Your task to perform on an android device: Clear all items from cart on newegg.com. Add dell alienware to the cart on newegg.com, then select checkout. Image 0: 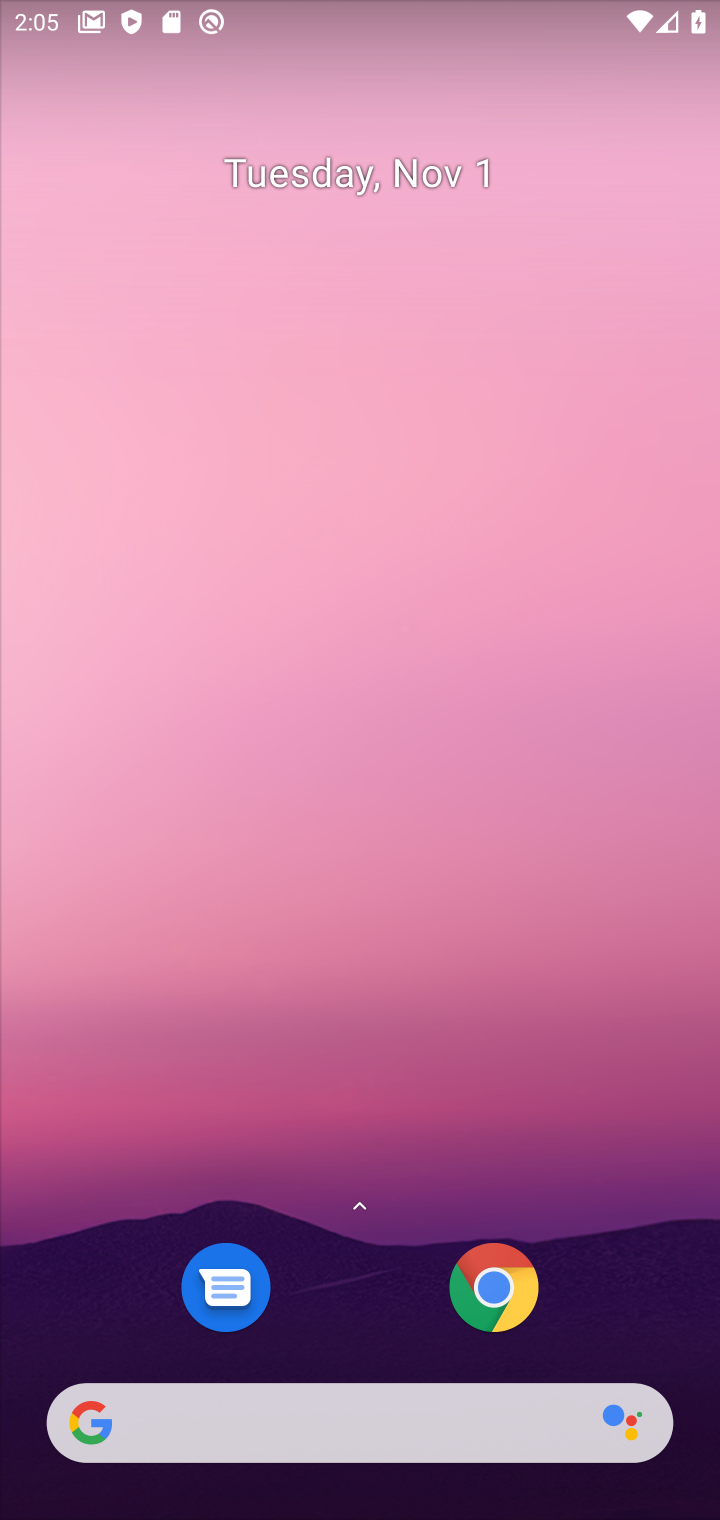
Step 0: drag from (375, 1315) to (556, 197)
Your task to perform on an android device: Clear all items from cart on newegg.com. Add dell alienware to the cart on newegg.com, then select checkout. Image 1: 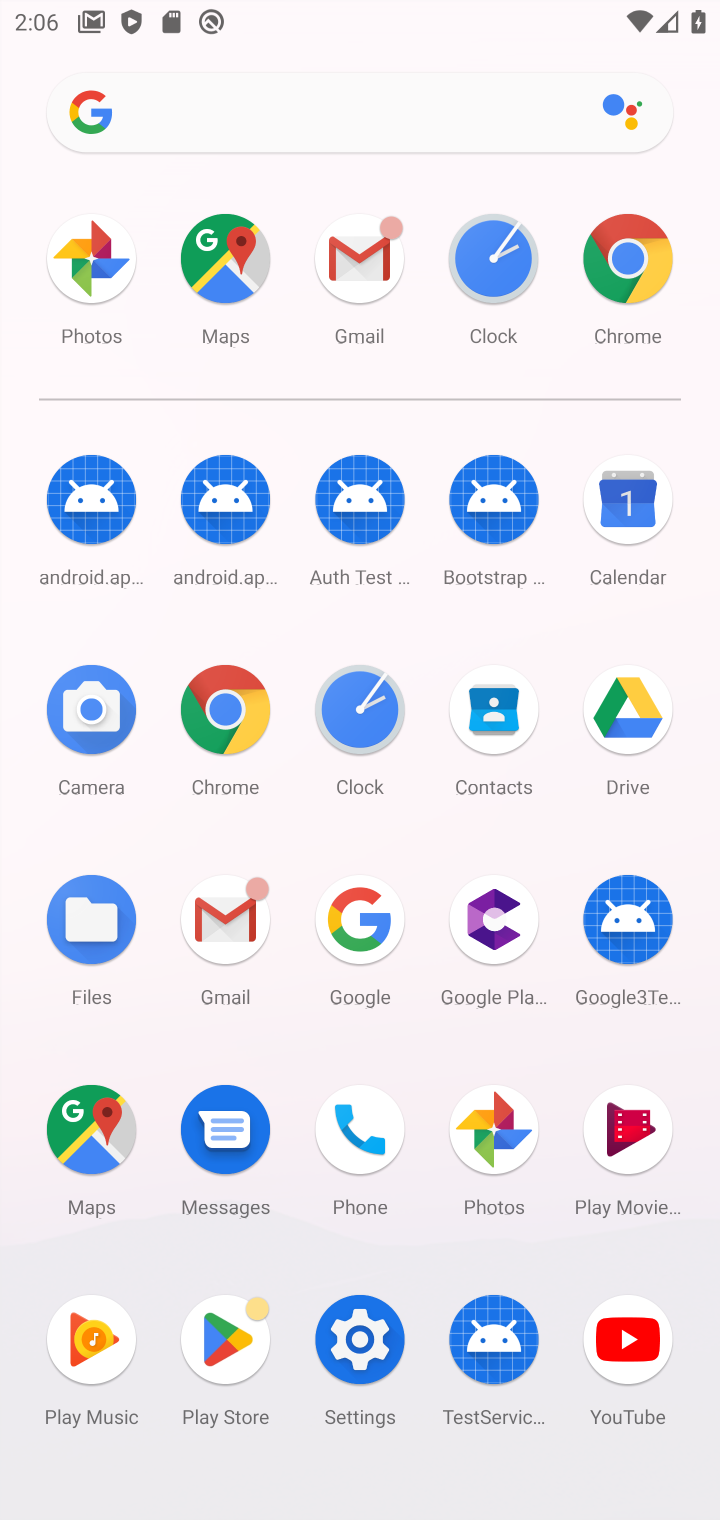
Step 1: click (210, 717)
Your task to perform on an android device: Clear all items from cart on newegg.com. Add dell alienware to the cart on newegg.com, then select checkout. Image 2: 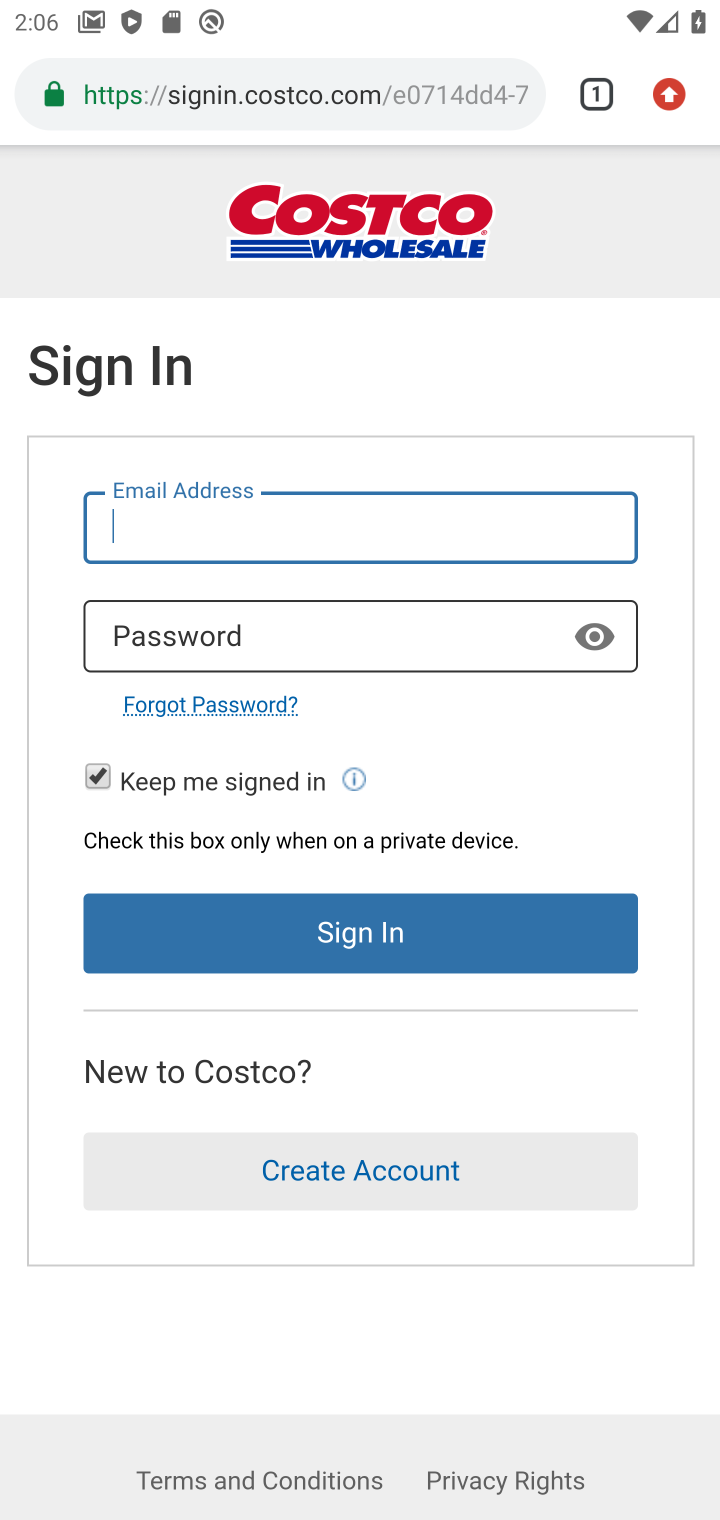
Step 2: click (350, 101)
Your task to perform on an android device: Clear all items from cart on newegg.com. Add dell alienware to the cart on newegg.com, then select checkout. Image 3: 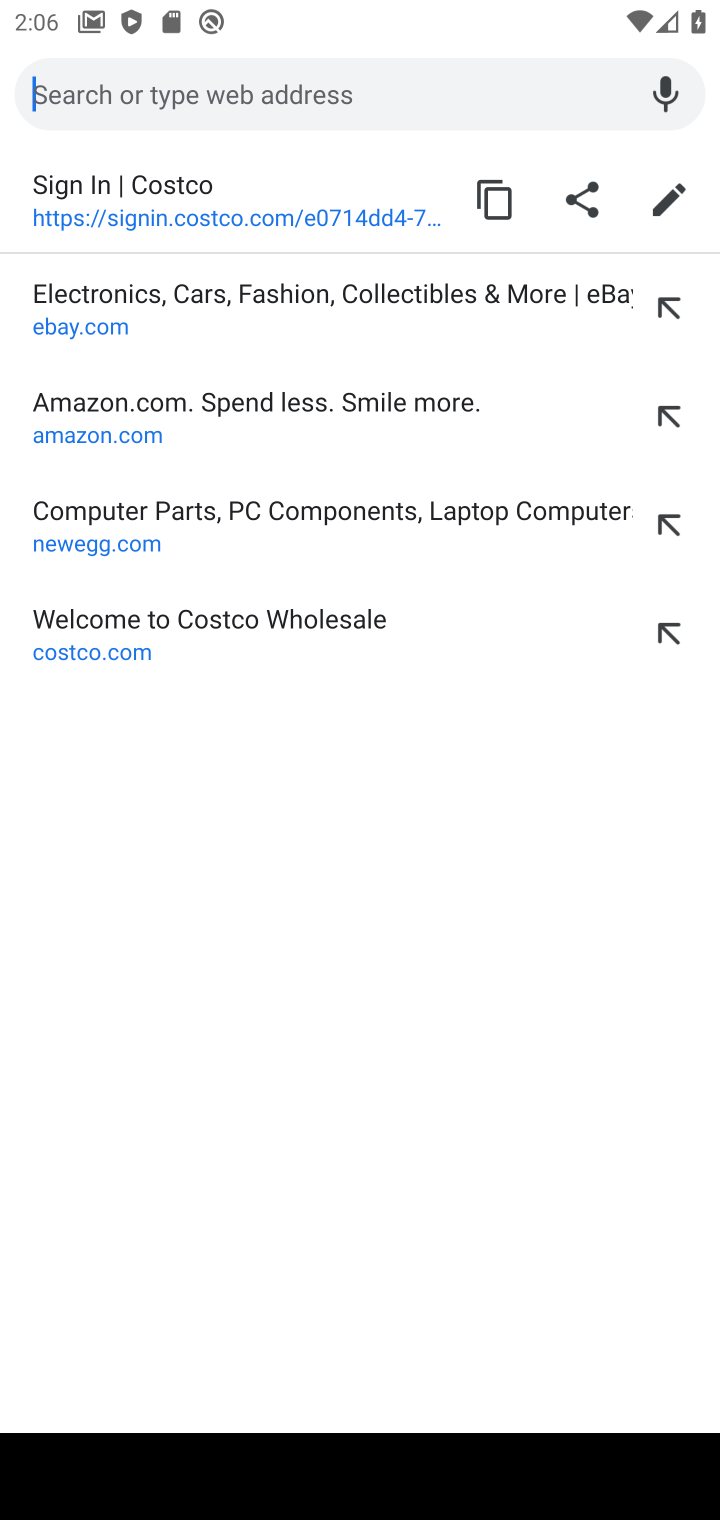
Step 3: type "newegg.com"
Your task to perform on an android device: Clear all items from cart on newegg.com. Add dell alienware to the cart on newegg.com, then select checkout. Image 4: 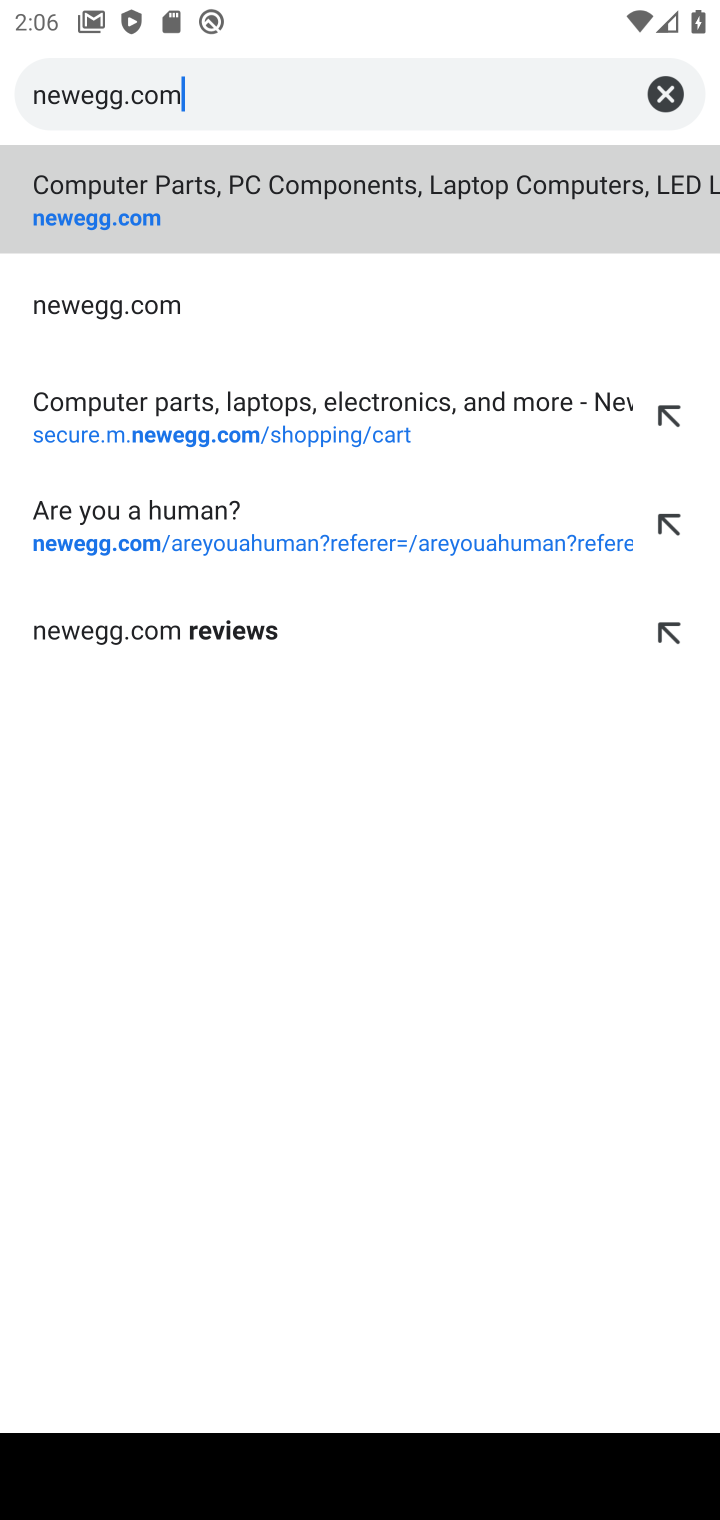
Step 4: press enter
Your task to perform on an android device: Clear all items from cart on newegg.com. Add dell alienware to the cart on newegg.com, then select checkout. Image 5: 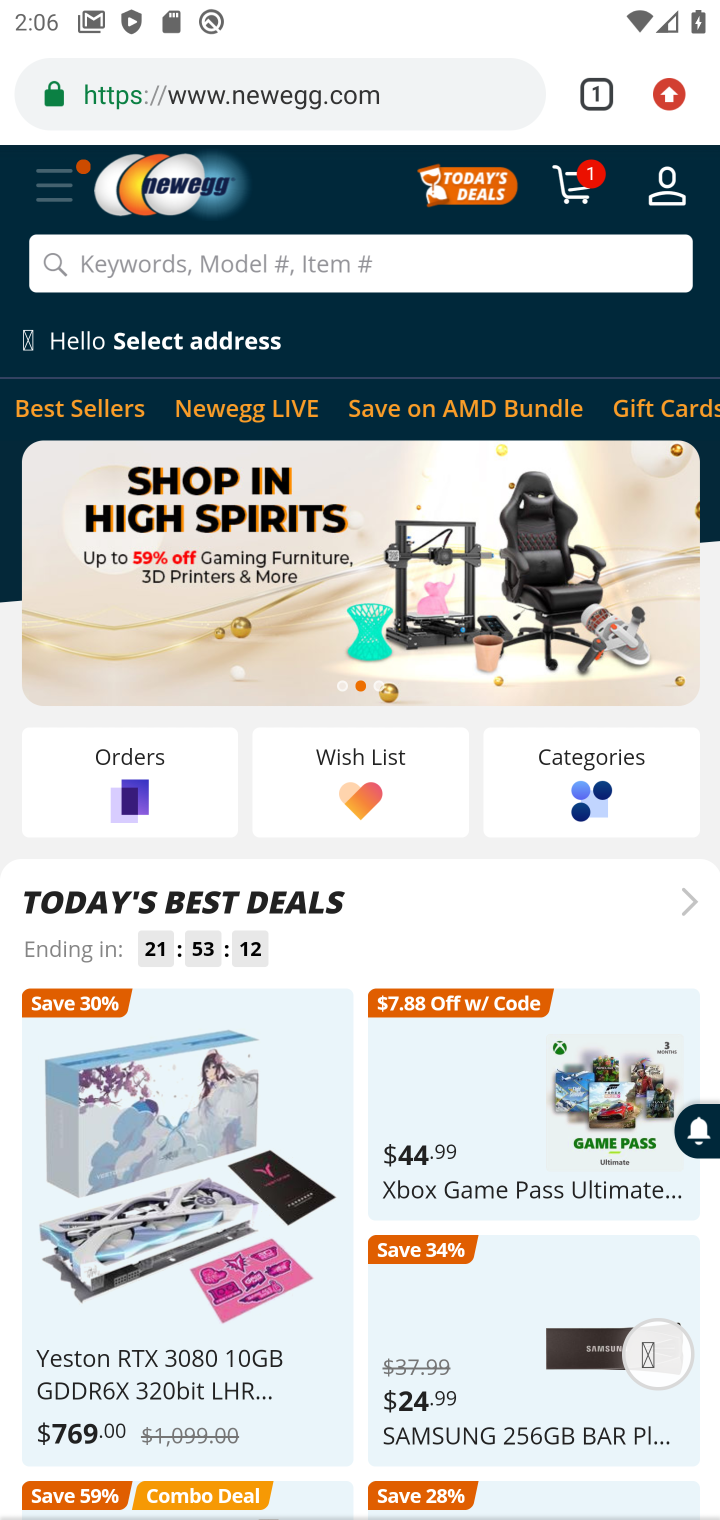
Step 5: click (595, 183)
Your task to perform on an android device: Clear all items from cart on newegg.com. Add dell alienware to the cart on newegg.com, then select checkout. Image 6: 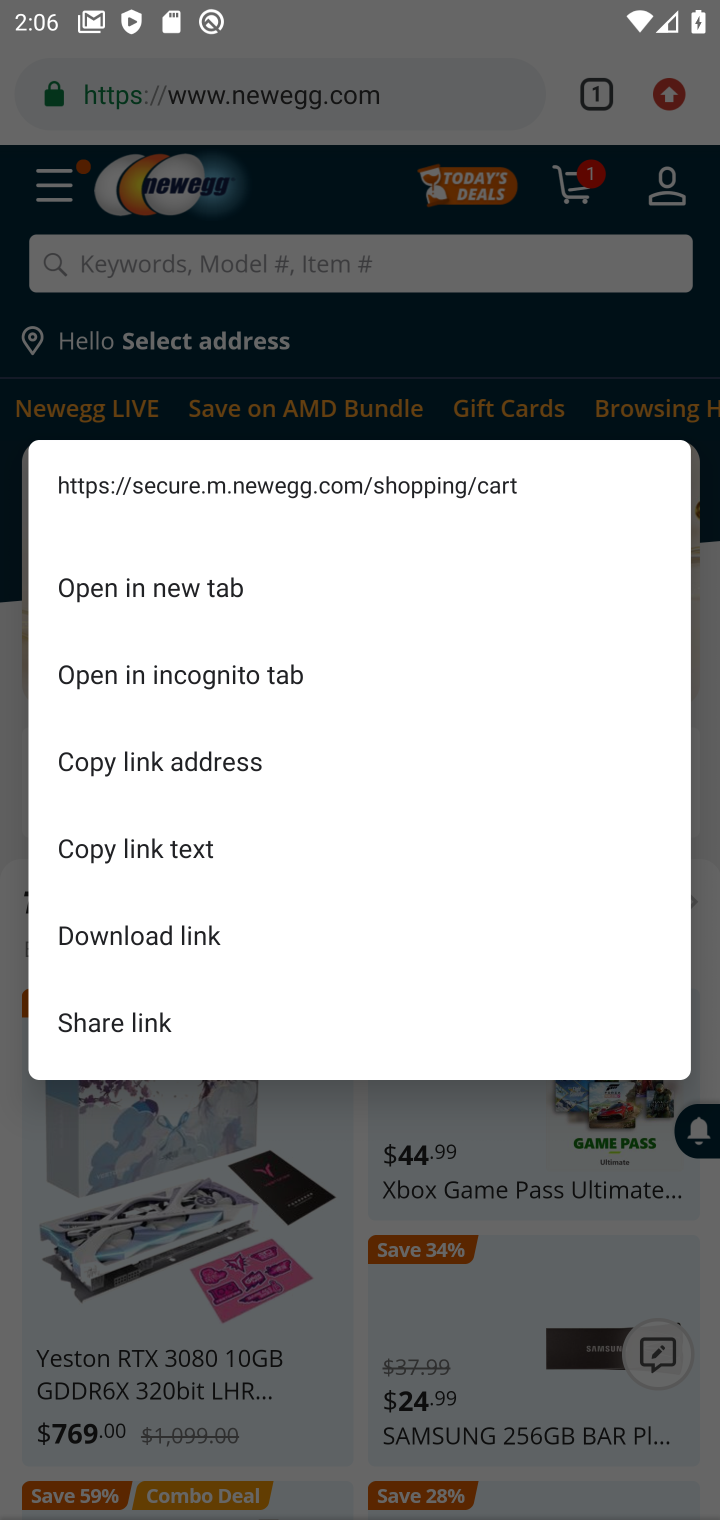
Step 6: click (579, 198)
Your task to perform on an android device: Clear all items from cart on newegg.com. Add dell alienware to the cart on newegg.com, then select checkout. Image 7: 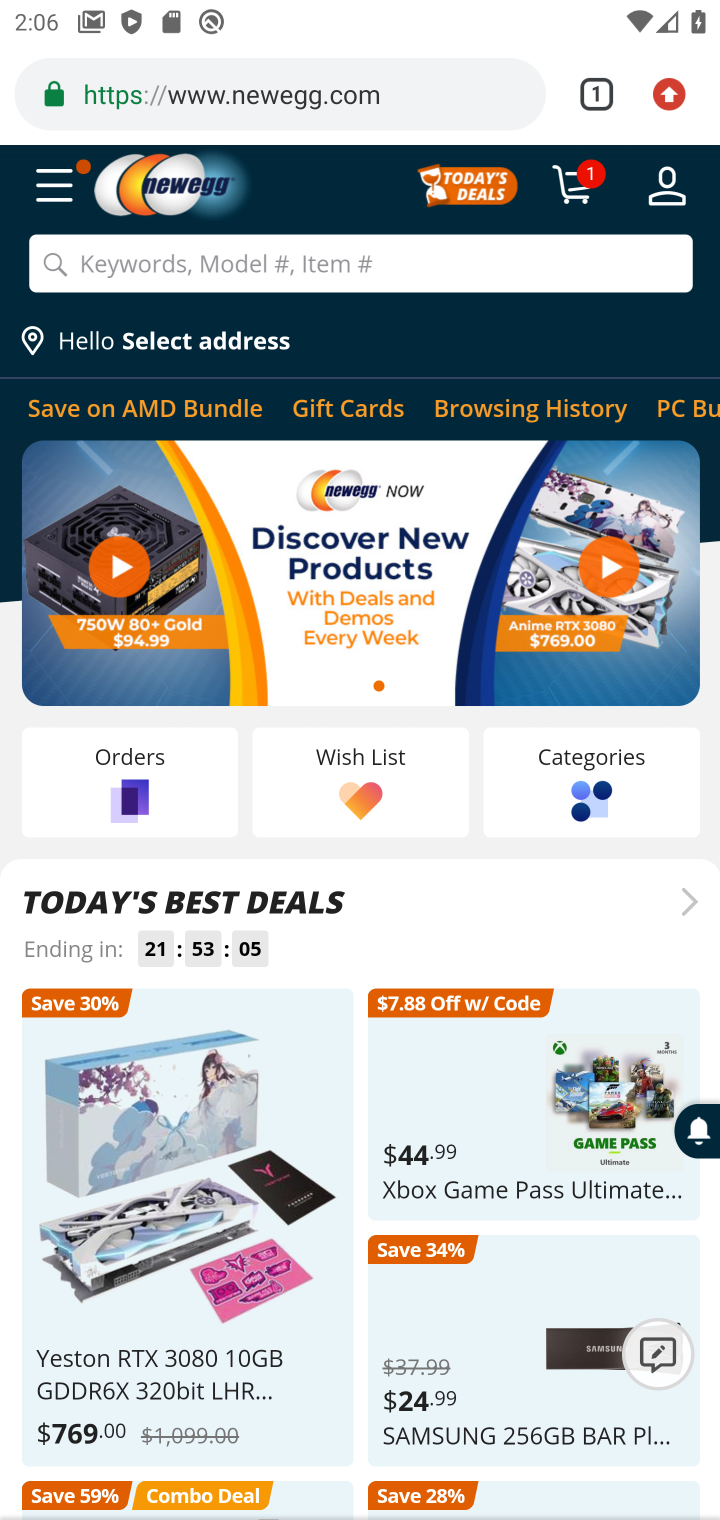
Step 7: click (579, 198)
Your task to perform on an android device: Clear all items from cart on newegg.com. Add dell alienware to the cart on newegg.com, then select checkout. Image 8: 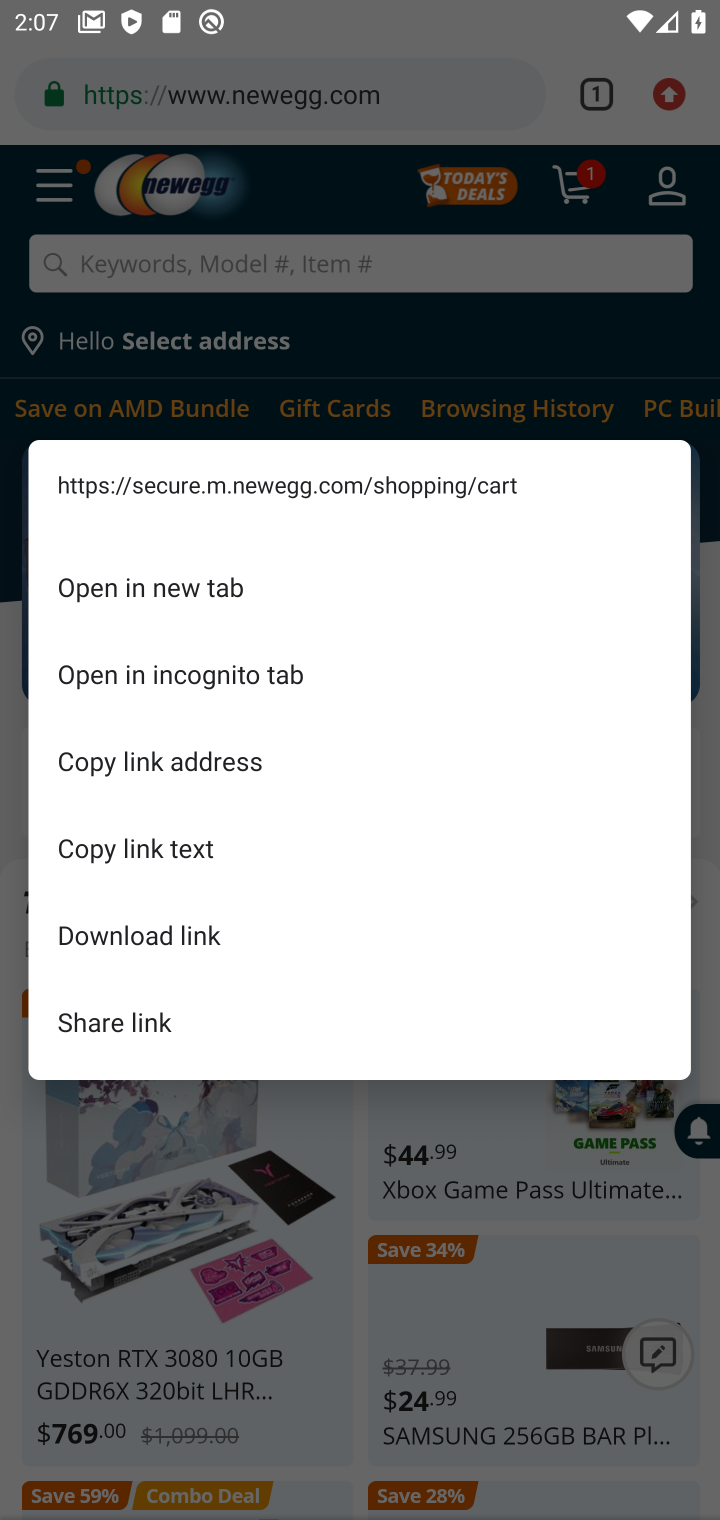
Step 8: click (569, 160)
Your task to perform on an android device: Clear all items from cart on newegg.com. Add dell alienware to the cart on newegg.com, then select checkout. Image 9: 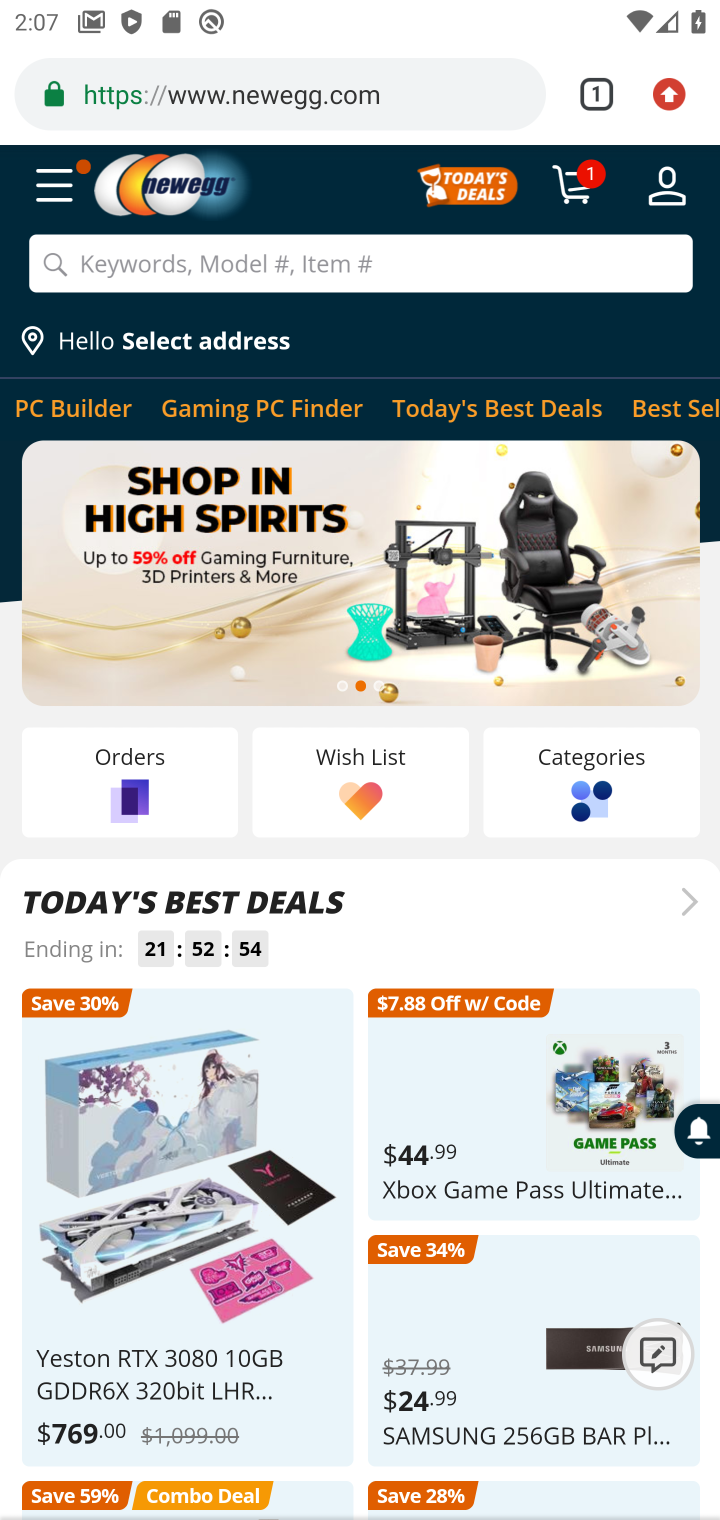
Step 9: click (577, 190)
Your task to perform on an android device: Clear all items from cart on newegg.com. Add dell alienware to the cart on newegg.com, then select checkout. Image 10: 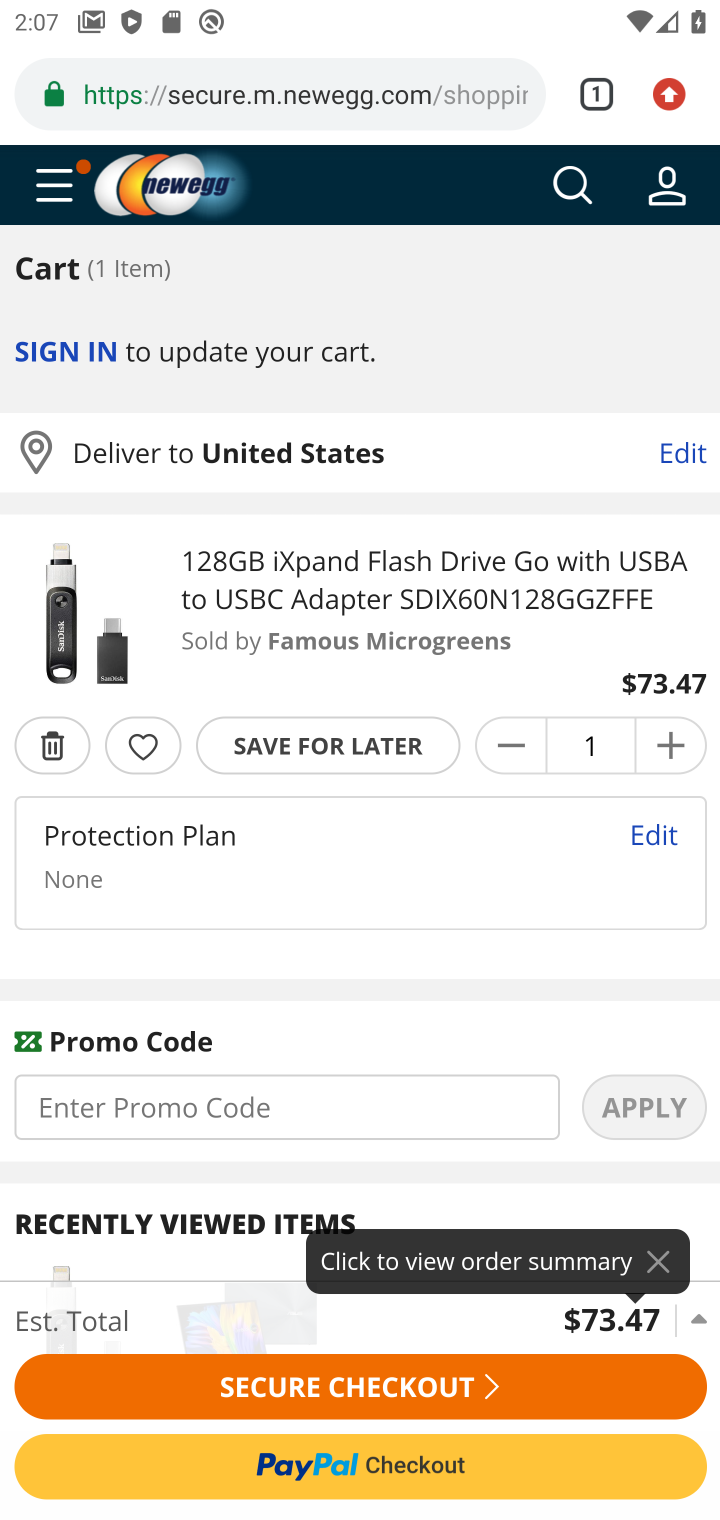
Step 10: click (55, 748)
Your task to perform on an android device: Clear all items from cart on newegg.com. Add dell alienware to the cart on newegg.com, then select checkout. Image 11: 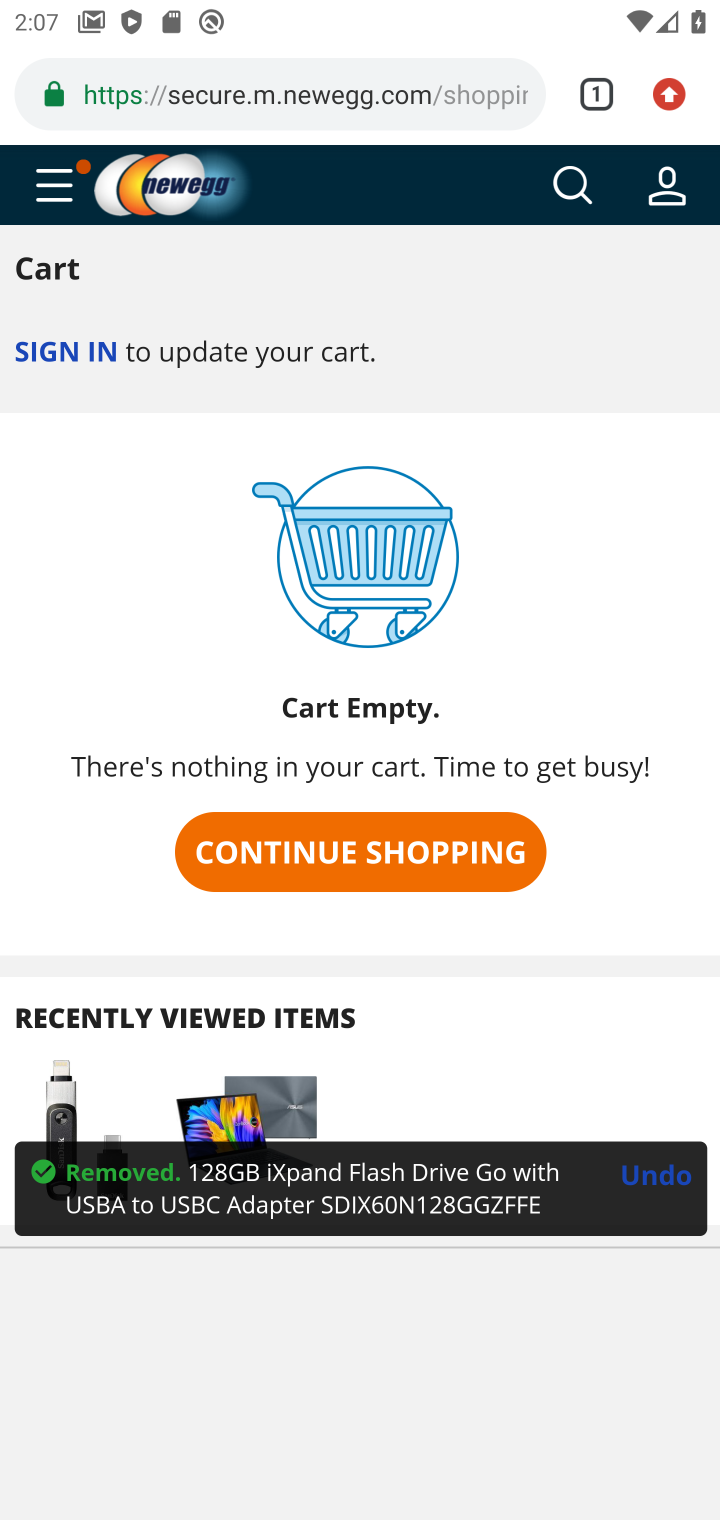
Step 11: click (588, 173)
Your task to perform on an android device: Clear all items from cart on newegg.com. Add dell alienware to the cart on newegg.com, then select checkout. Image 12: 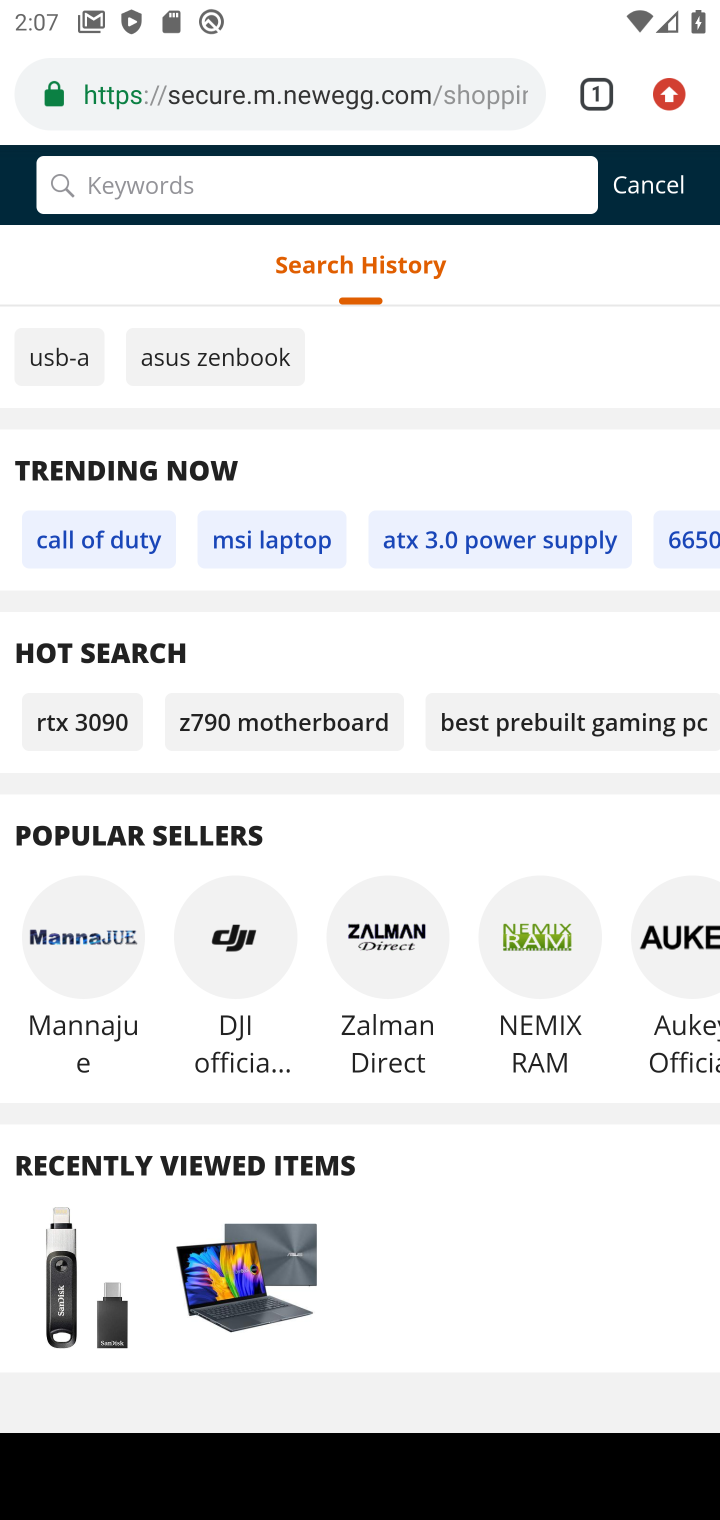
Step 12: type "dell alienware"
Your task to perform on an android device: Clear all items from cart on newegg.com. Add dell alienware to the cart on newegg.com, then select checkout. Image 13: 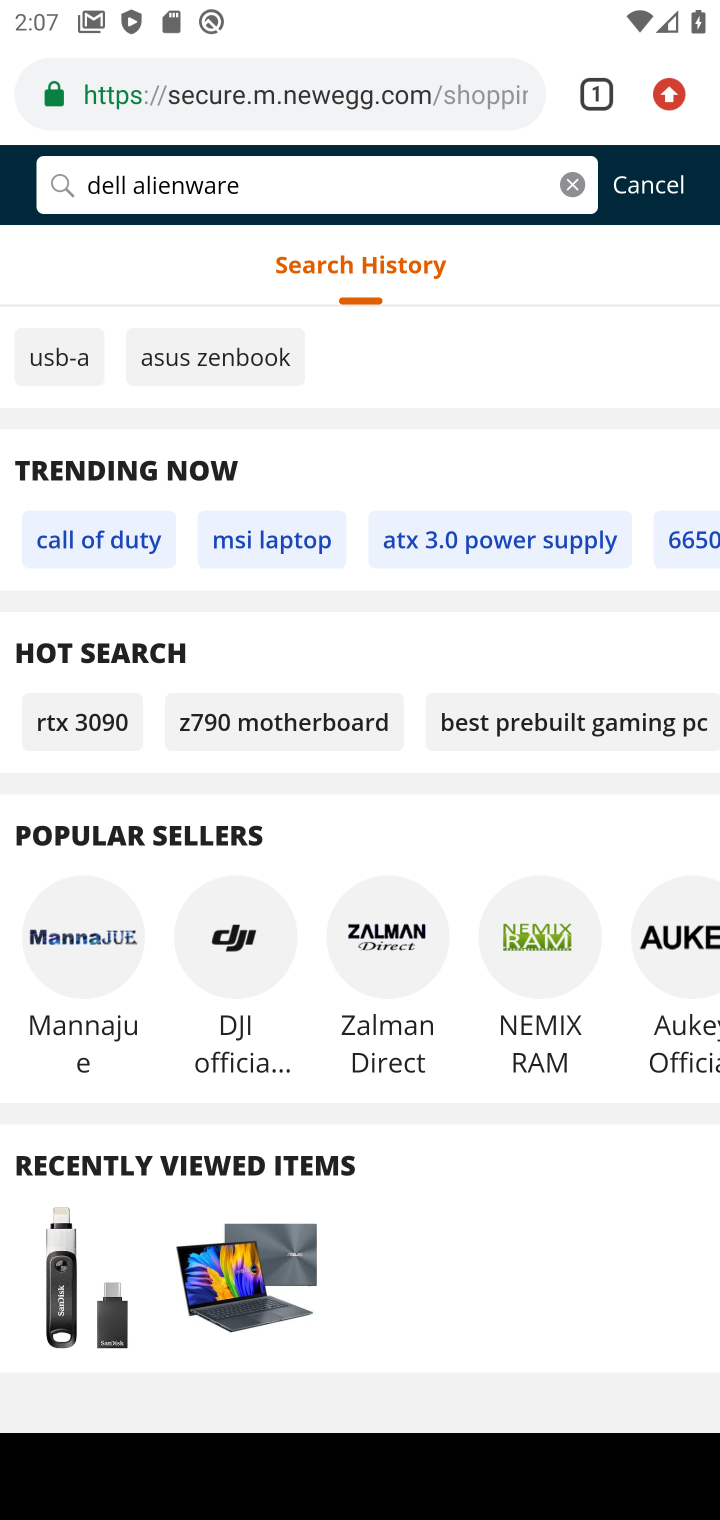
Step 13: press enter
Your task to perform on an android device: Clear all items from cart on newegg.com. Add dell alienware to the cart on newegg.com, then select checkout. Image 14: 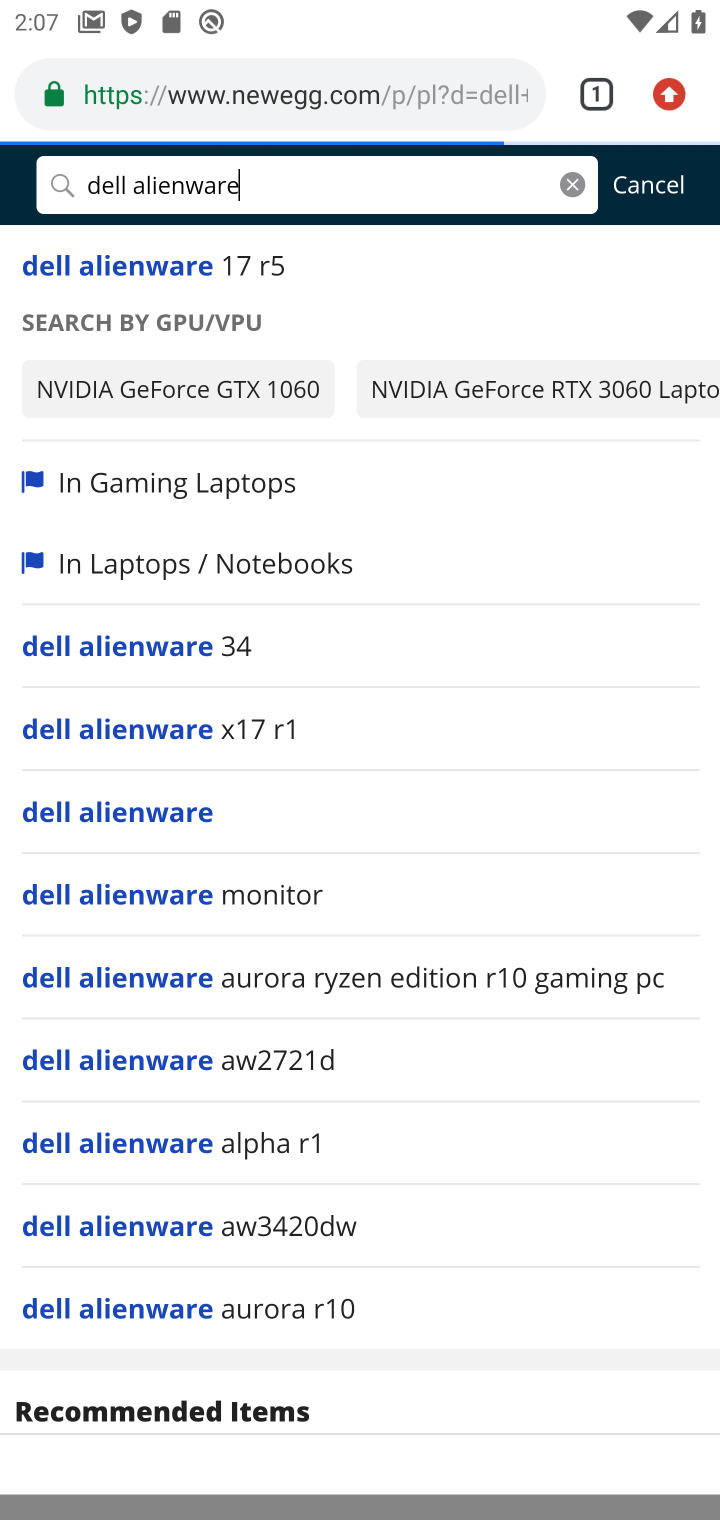
Step 14: press enter
Your task to perform on an android device: Clear all items from cart on newegg.com. Add dell alienware to the cart on newegg.com, then select checkout. Image 15: 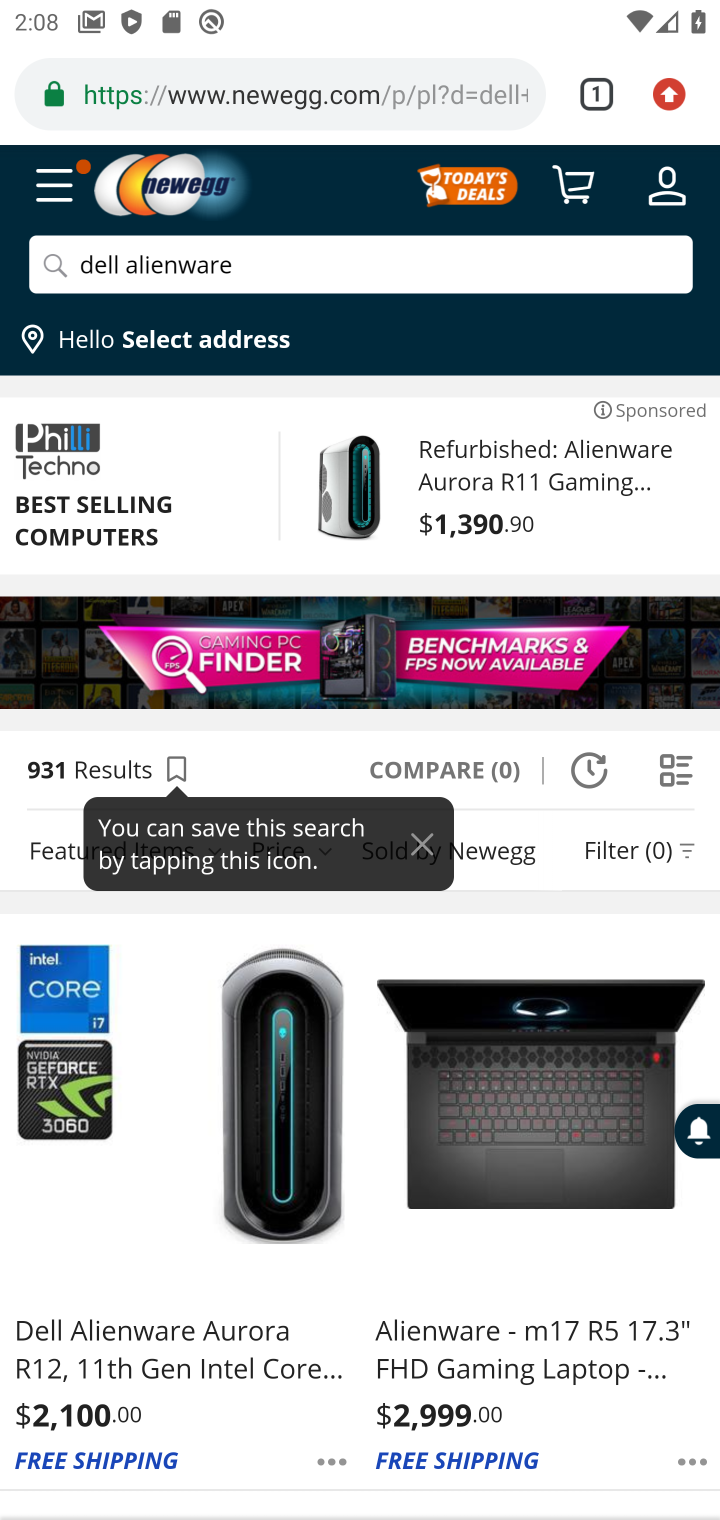
Step 15: drag from (388, 1271) to (472, 369)
Your task to perform on an android device: Clear all items from cart on newegg.com. Add dell alienware to the cart on newegg.com, then select checkout. Image 16: 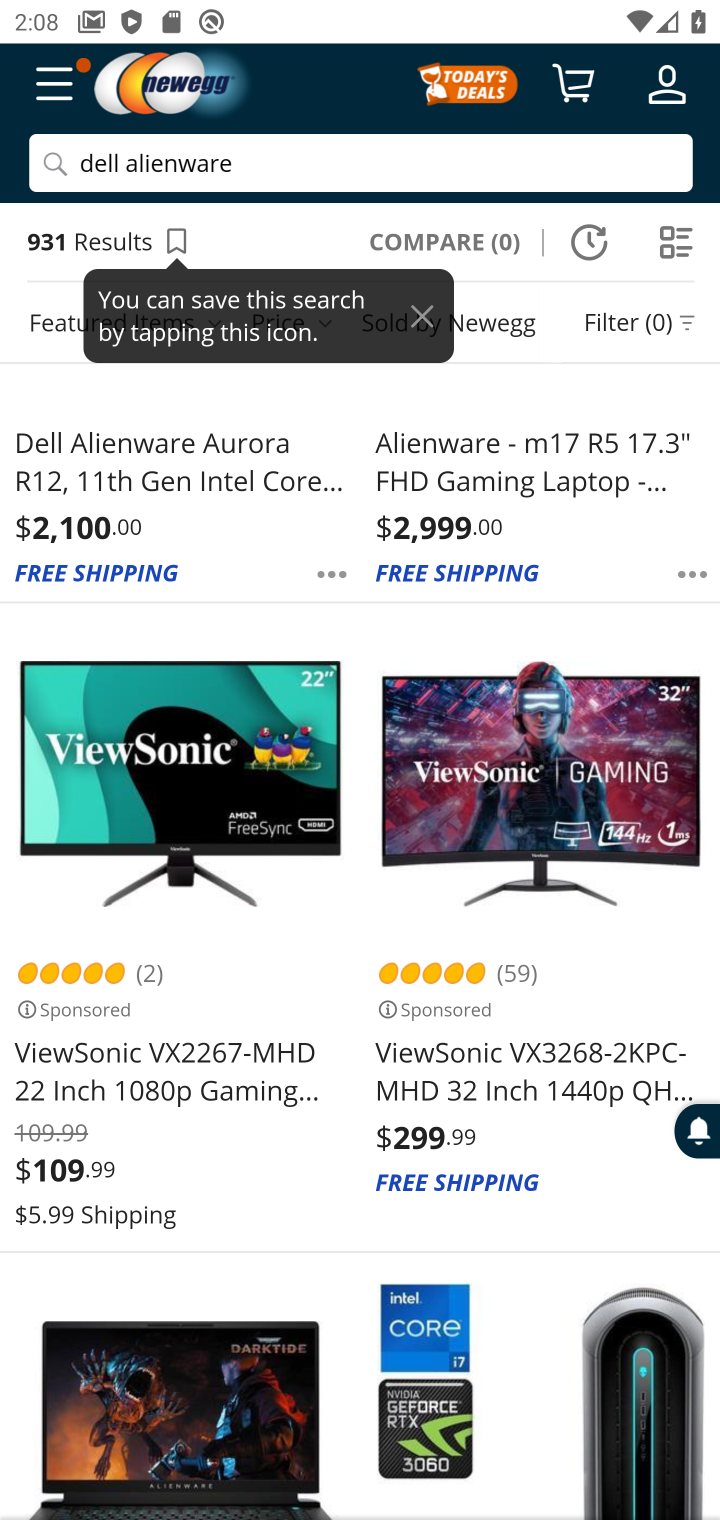
Step 16: drag from (546, 528) to (552, 798)
Your task to perform on an android device: Clear all items from cart on newegg.com. Add dell alienware to the cart on newegg.com, then select checkout. Image 17: 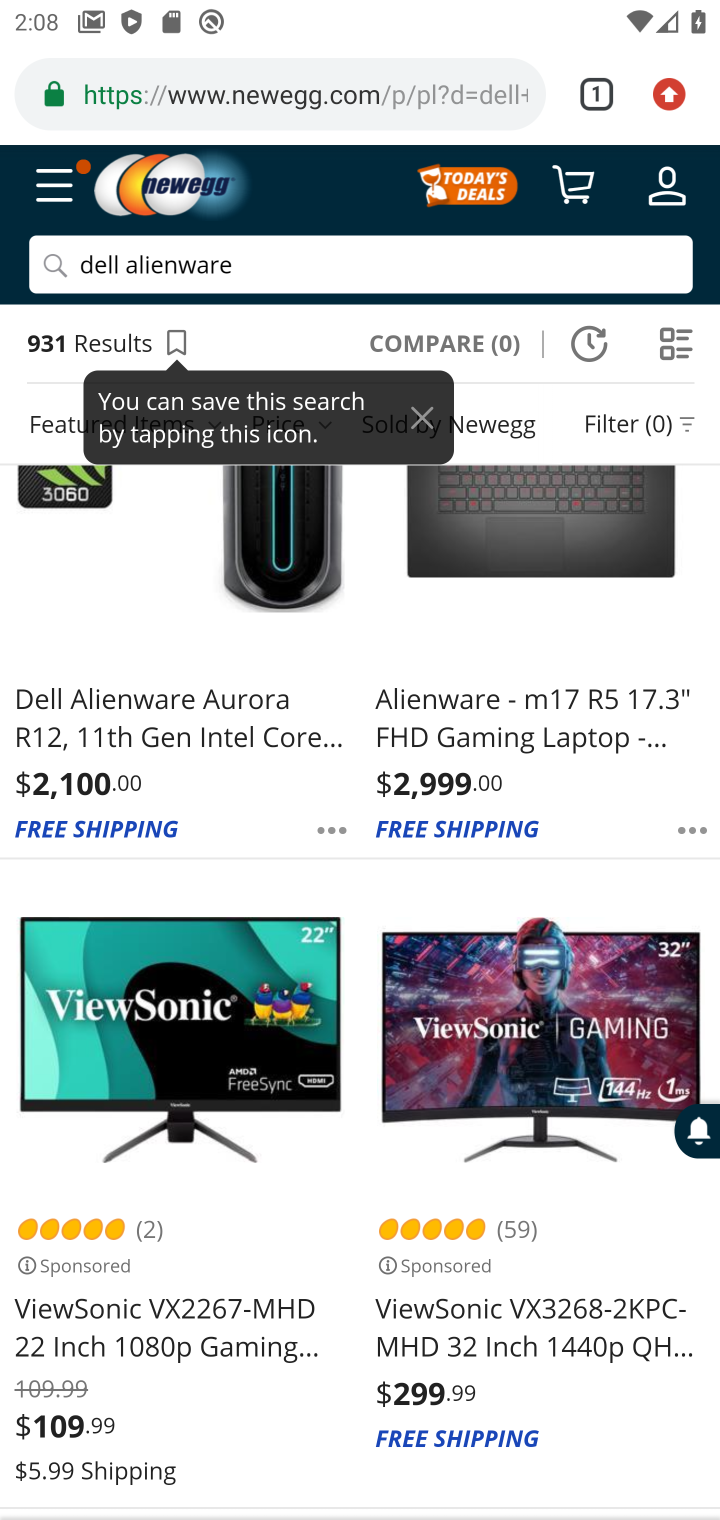
Step 17: drag from (518, 598) to (456, 1071)
Your task to perform on an android device: Clear all items from cart on newegg.com. Add dell alienware to the cart on newegg.com, then select checkout. Image 18: 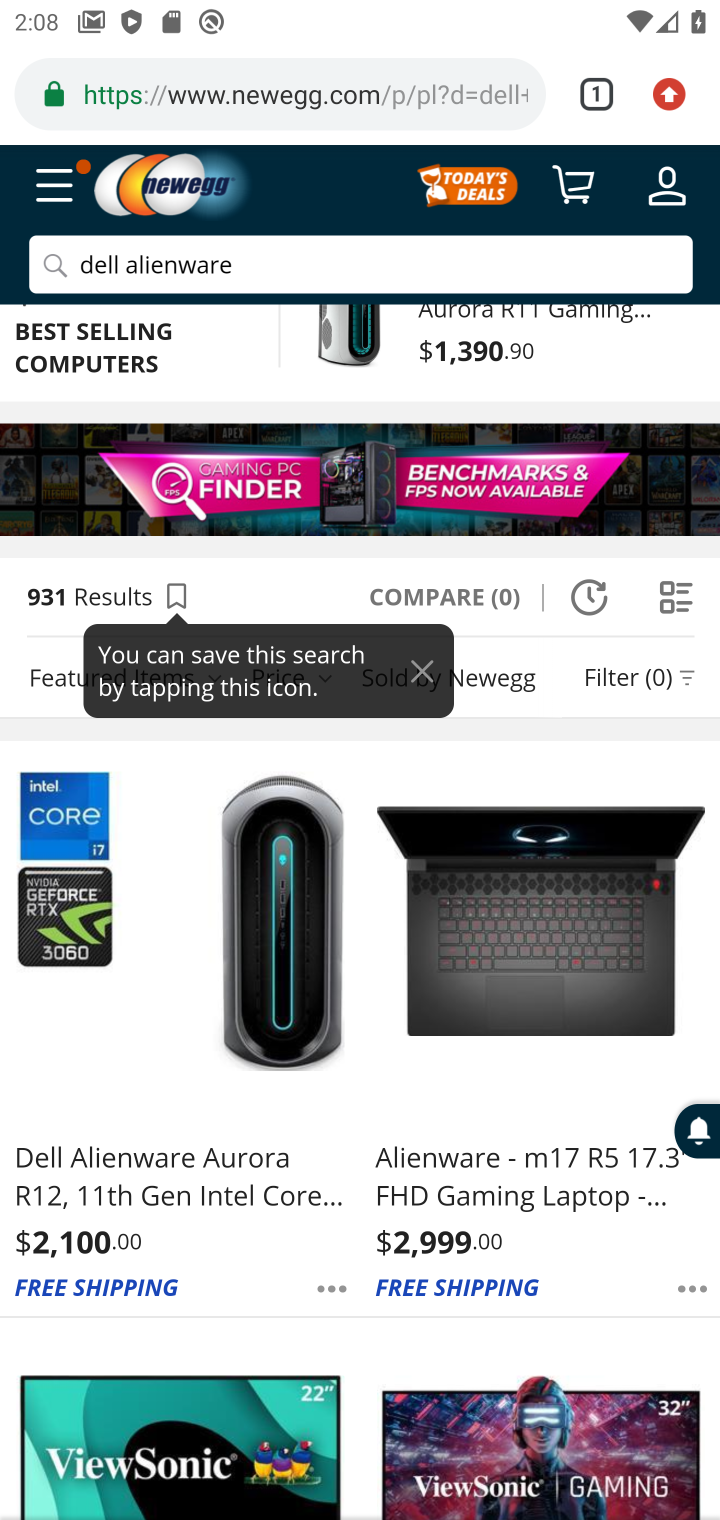
Step 18: click (286, 980)
Your task to perform on an android device: Clear all items from cart on newegg.com. Add dell alienware to the cart on newegg.com, then select checkout. Image 19: 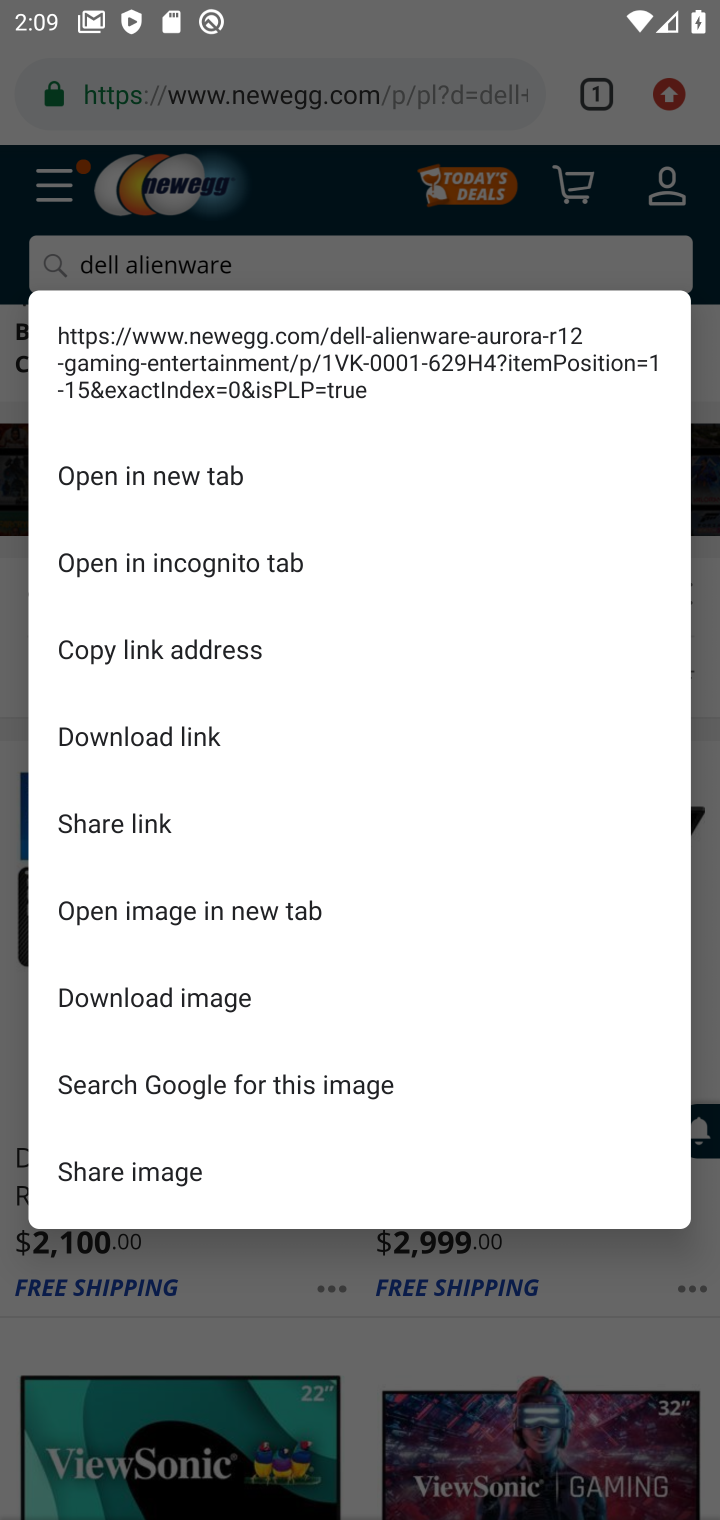
Step 19: click (332, 1288)
Your task to perform on an android device: Clear all items from cart on newegg.com. Add dell alienware to the cart on newegg.com, then select checkout. Image 20: 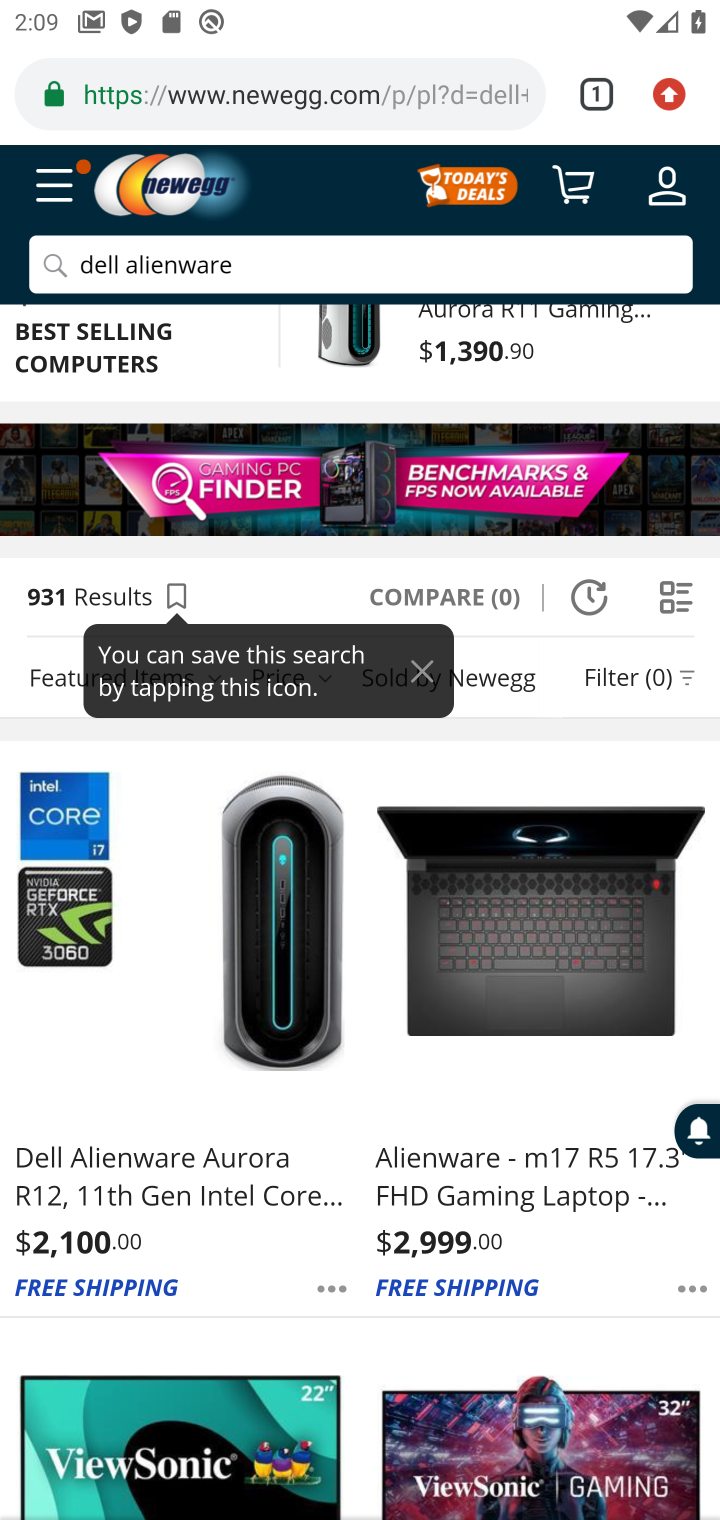
Step 20: click (175, 1148)
Your task to perform on an android device: Clear all items from cart on newegg.com. Add dell alienware to the cart on newegg.com, then select checkout. Image 21: 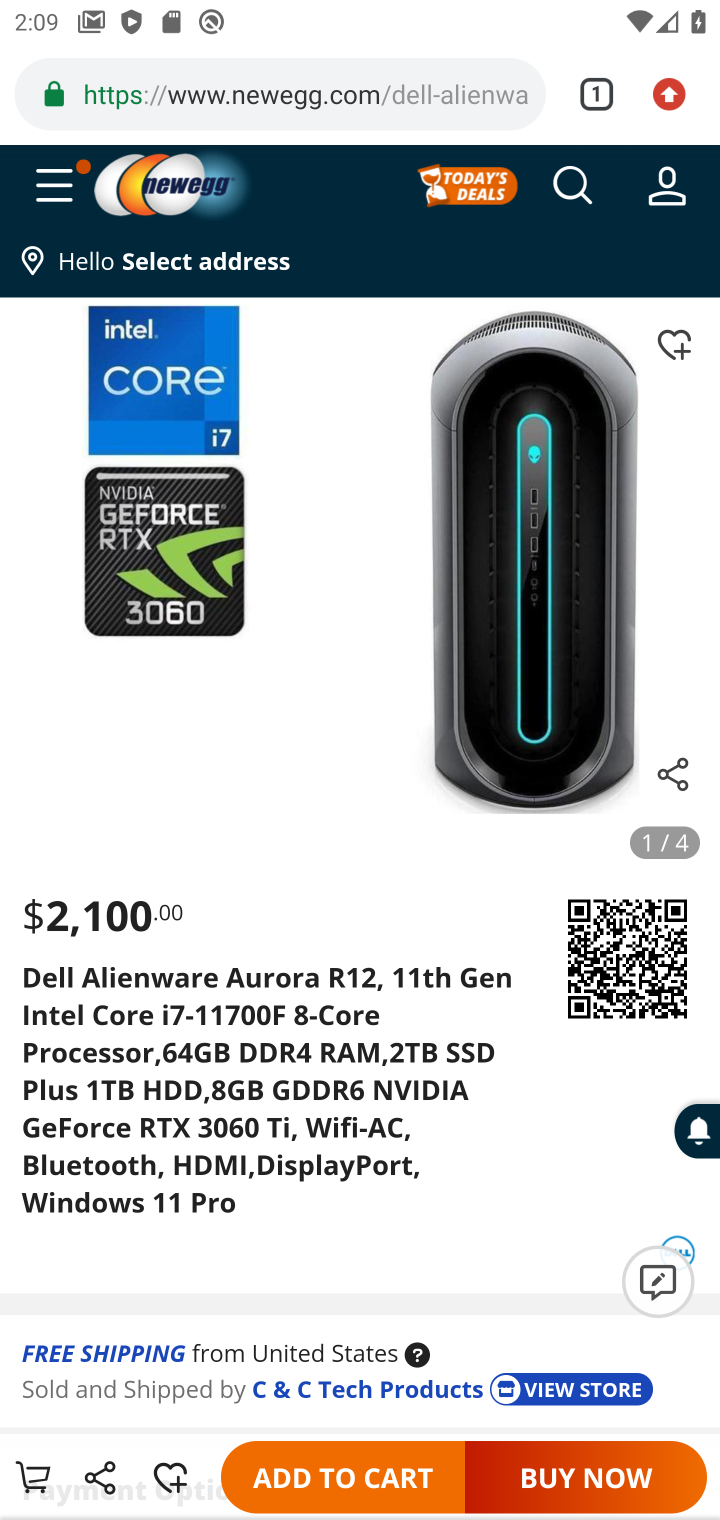
Step 21: click (359, 1476)
Your task to perform on an android device: Clear all items from cart on newegg.com. Add dell alienware to the cart on newegg.com, then select checkout. Image 22: 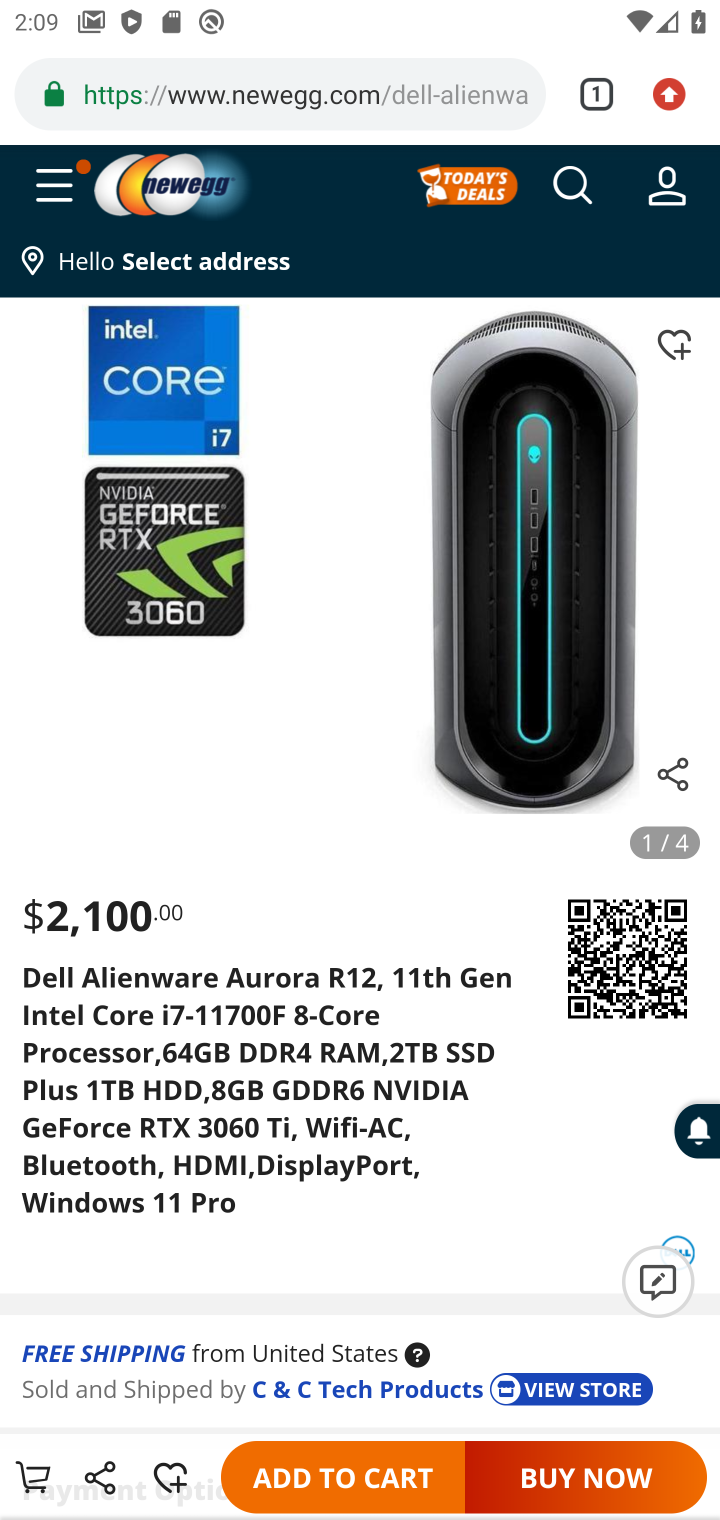
Step 22: click (336, 1464)
Your task to perform on an android device: Clear all items from cart on newegg.com. Add dell alienware to the cart on newegg.com, then select checkout. Image 23: 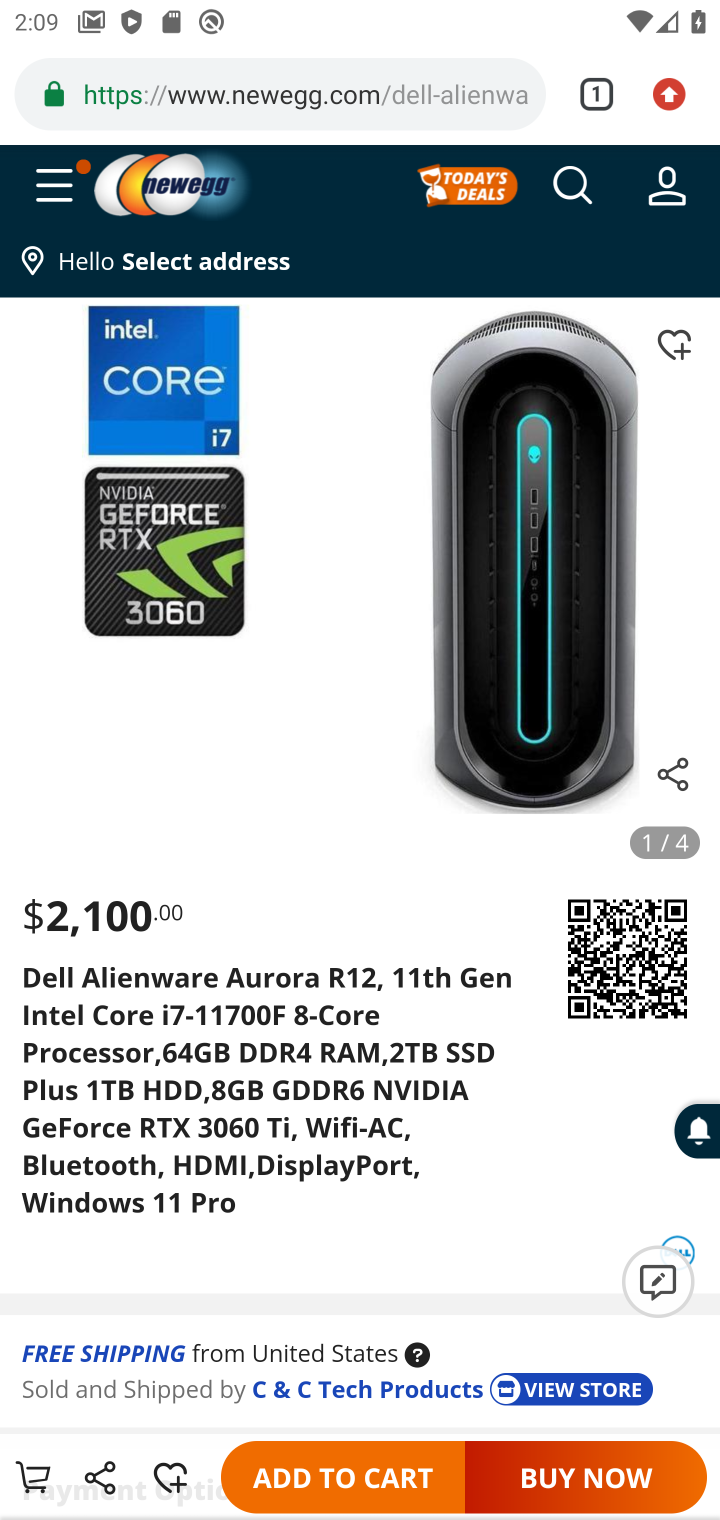
Step 23: click (311, 1456)
Your task to perform on an android device: Clear all items from cart on newegg.com. Add dell alienware to the cart on newegg.com, then select checkout. Image 24: 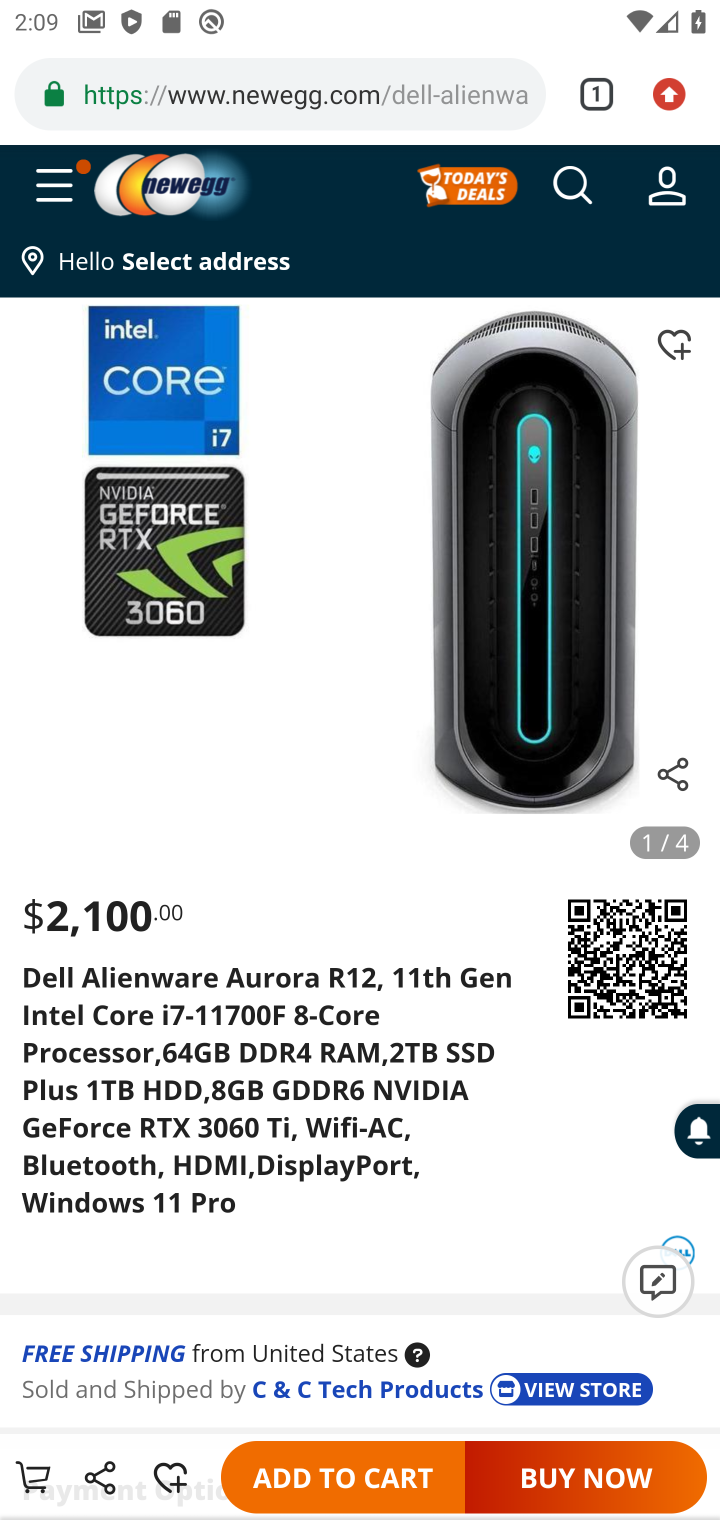
Step 24: drag from (291, 805) to (287, 226)
Your task to perform on an android device: Clear all items from cart on newegg.com. Add dell alienware to the cart on newegg.com, then select checkout. Image 25: 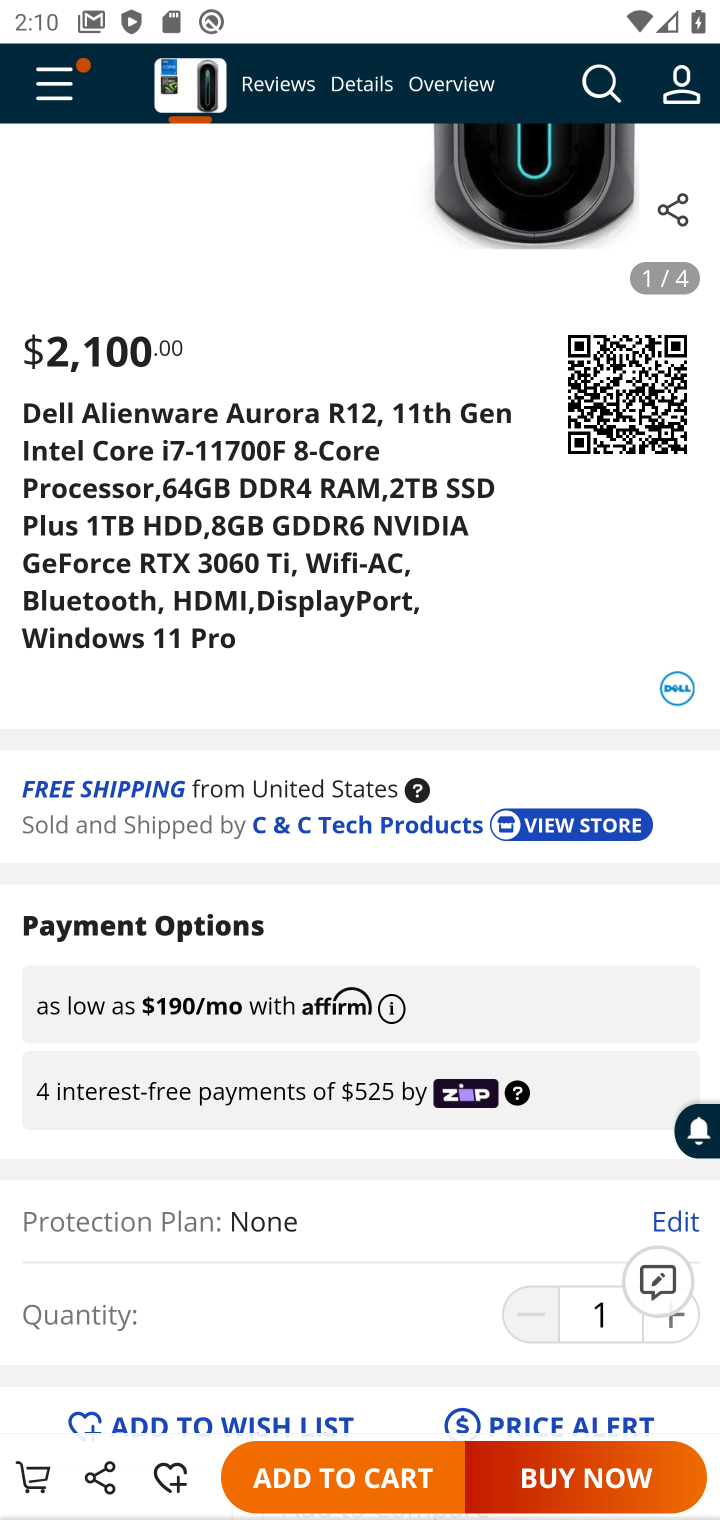
Step 25: click (341, 1474)
Your task to perform on an android device: Clear all items from cart on newegg.com. Add dell alienware to the cart on newegg.com, then select checkout. Image 26: 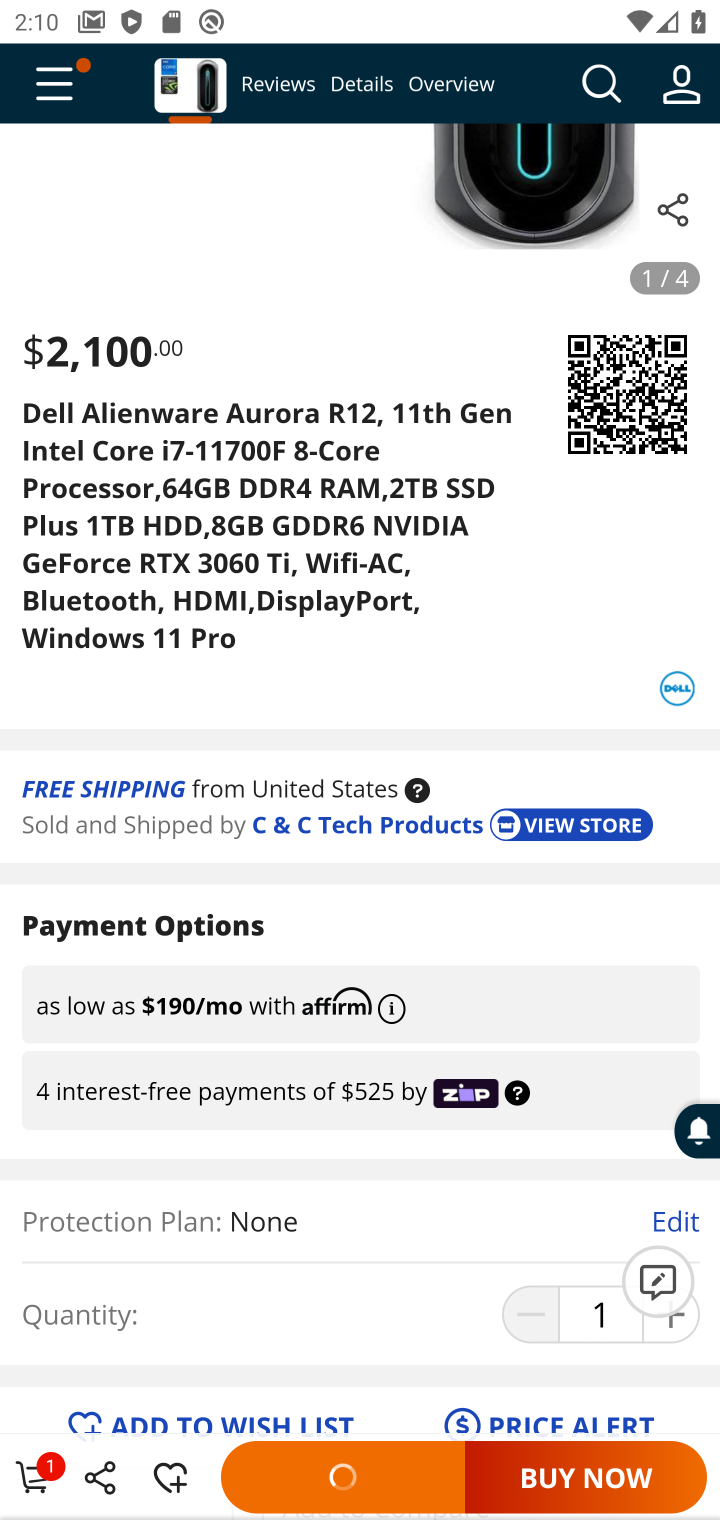
Step 26: click (43, 1466)
Your task to perform on an android device: Clear all items from cart on newegg.com. Add dell alienware to the cart on newegg.com, then select checkout. Image 27: 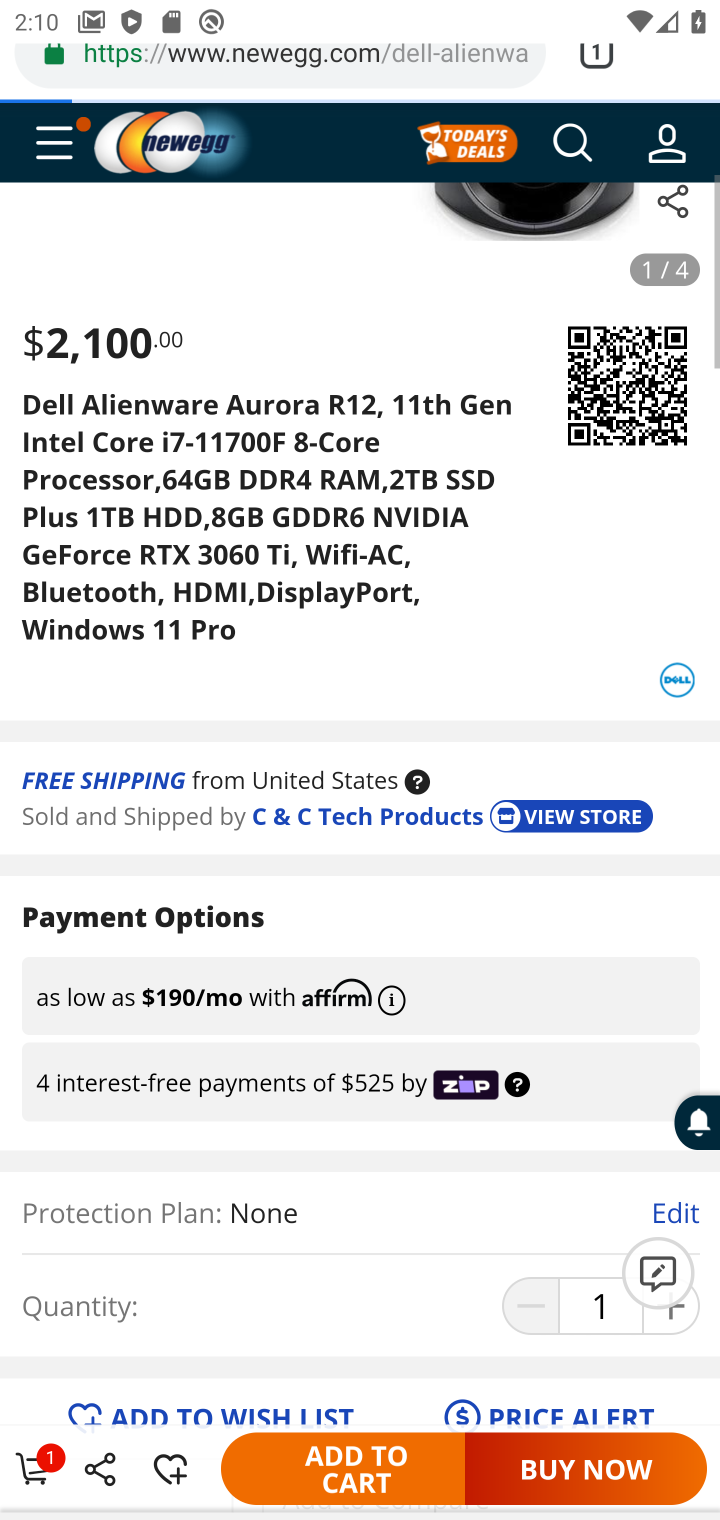
Step 27: click (45, 1485)
Your task to perform on an android device: Clear all items from cart on newegg.com. Add dell alienware to the cart on newegg.com, then select checkout. Image 28: 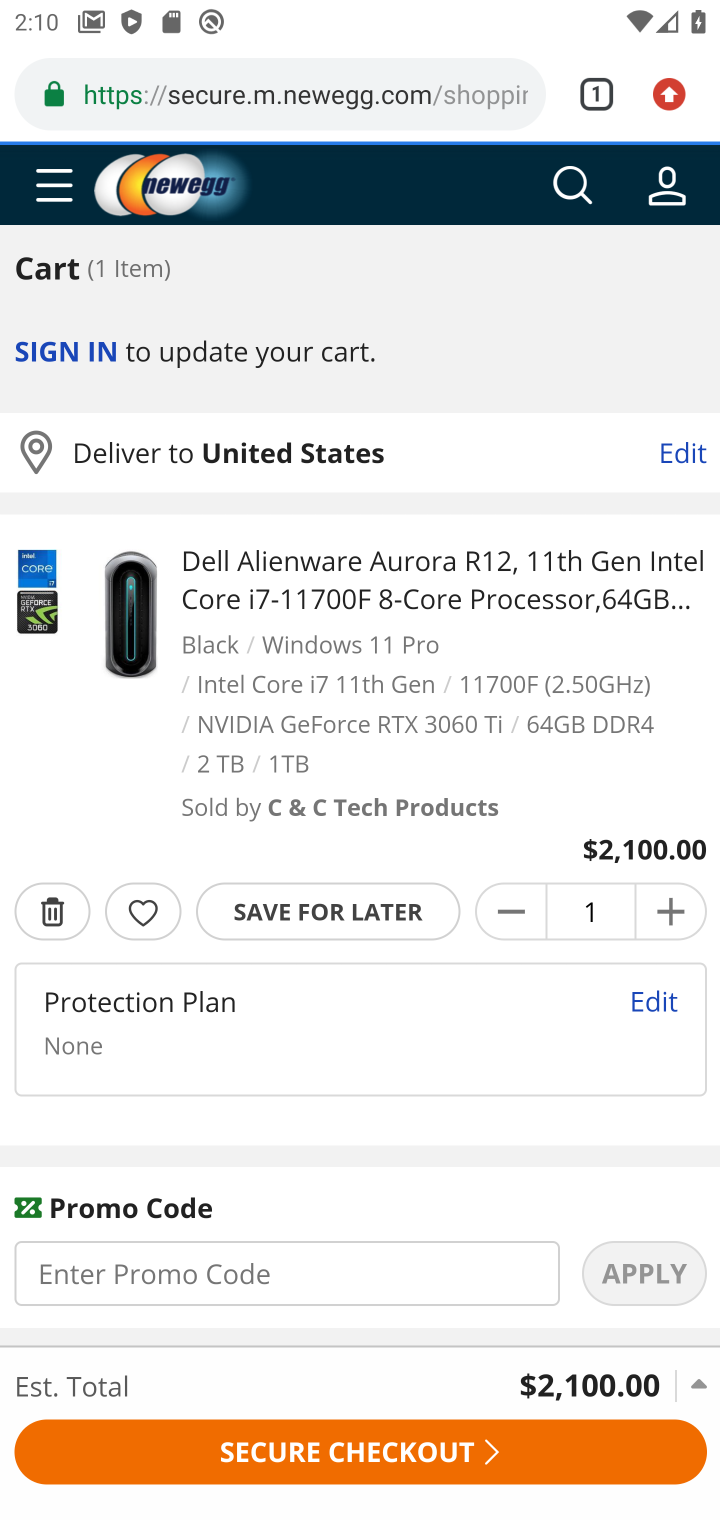
Step 28: click (350, 1389)
Your task to perform on an android device: Clear all items from cart on newegg.com. Add dell alienware to the cart on newegg.com, then select checkout. Image 29: 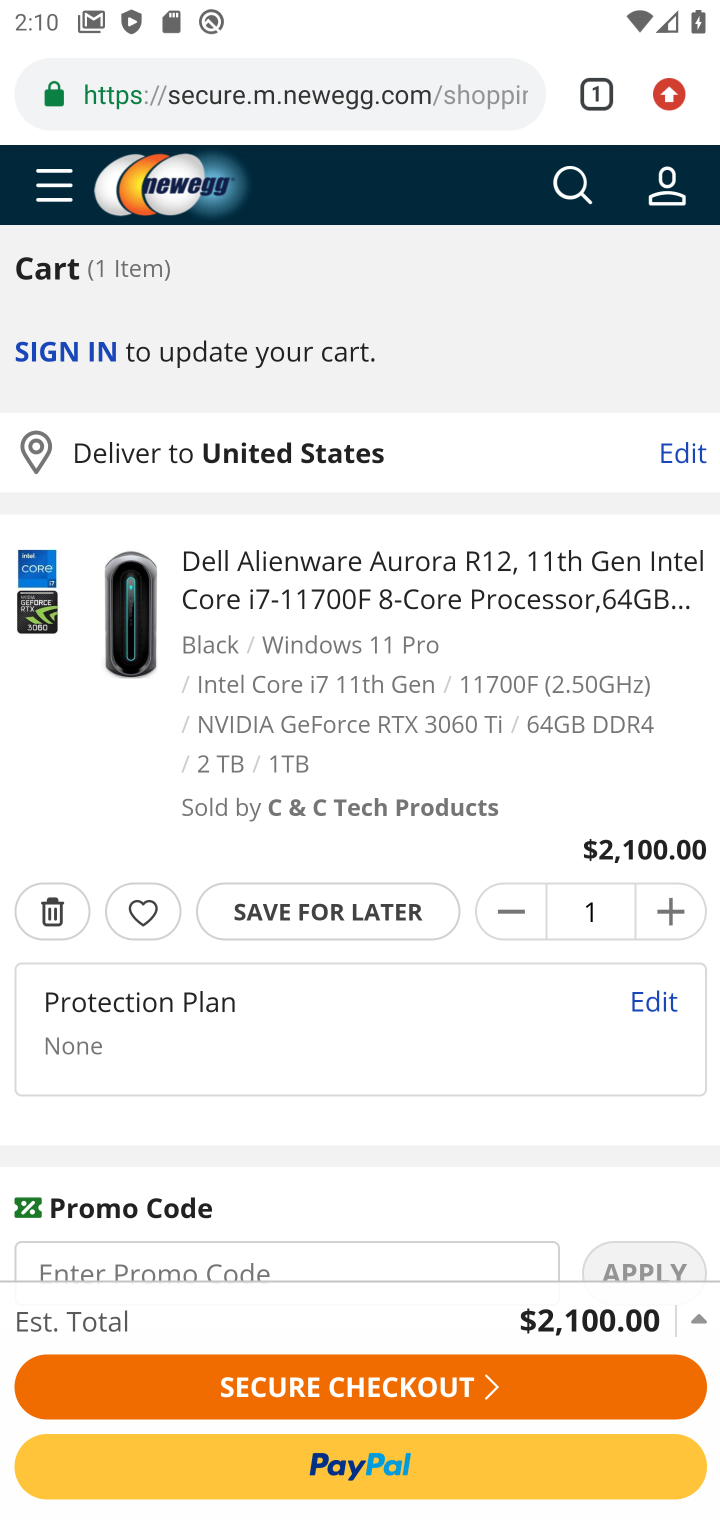
Step 29: click (425, 1448)
Your task to perform on an android device: Clear all items from cart on newegg.com. Add dell alienware to the cart on newegg.com, then select checkout. Image 30: 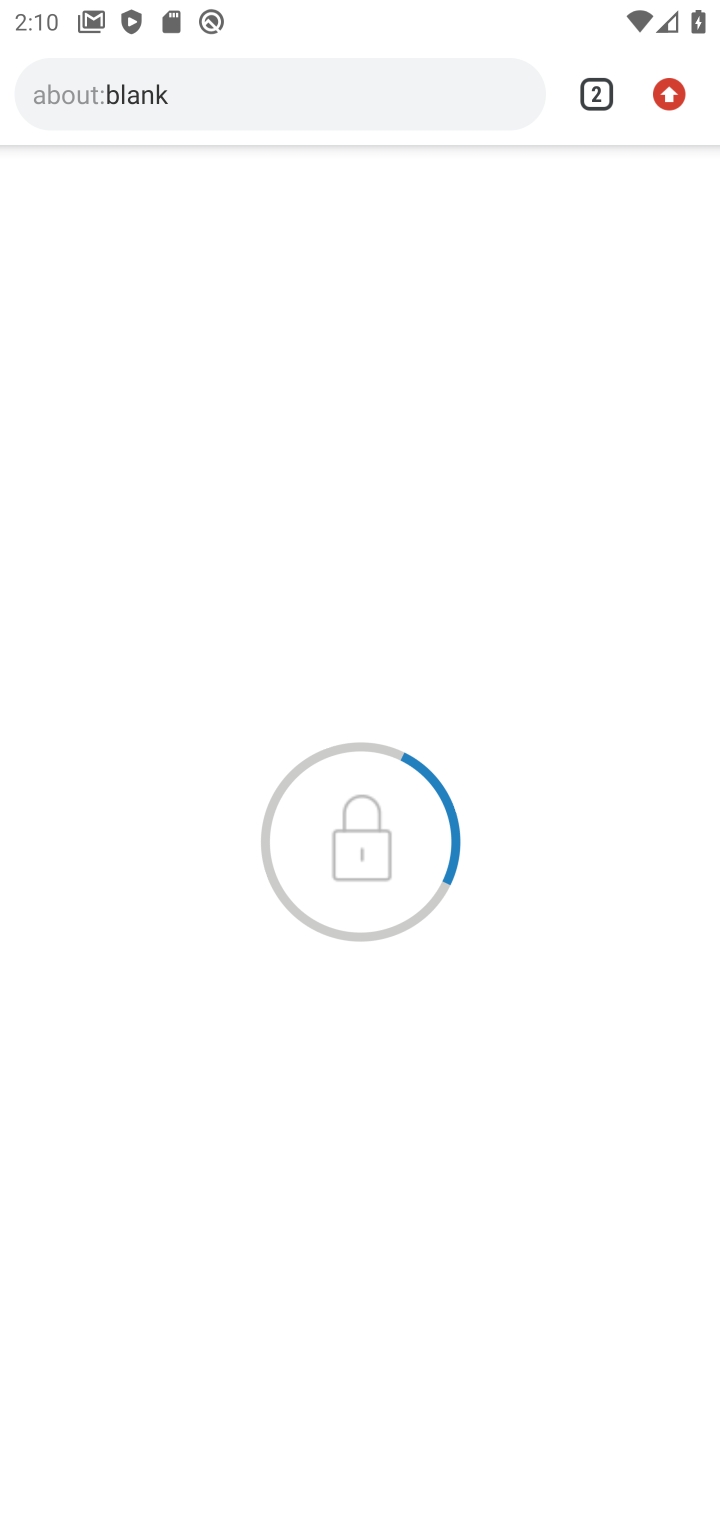
Step 30: press back button
Your task to perform on an android device: Clear all items from cart on newegg.com. Add dell alienware to the cart on newegg.com, then select checkout. Image 31: 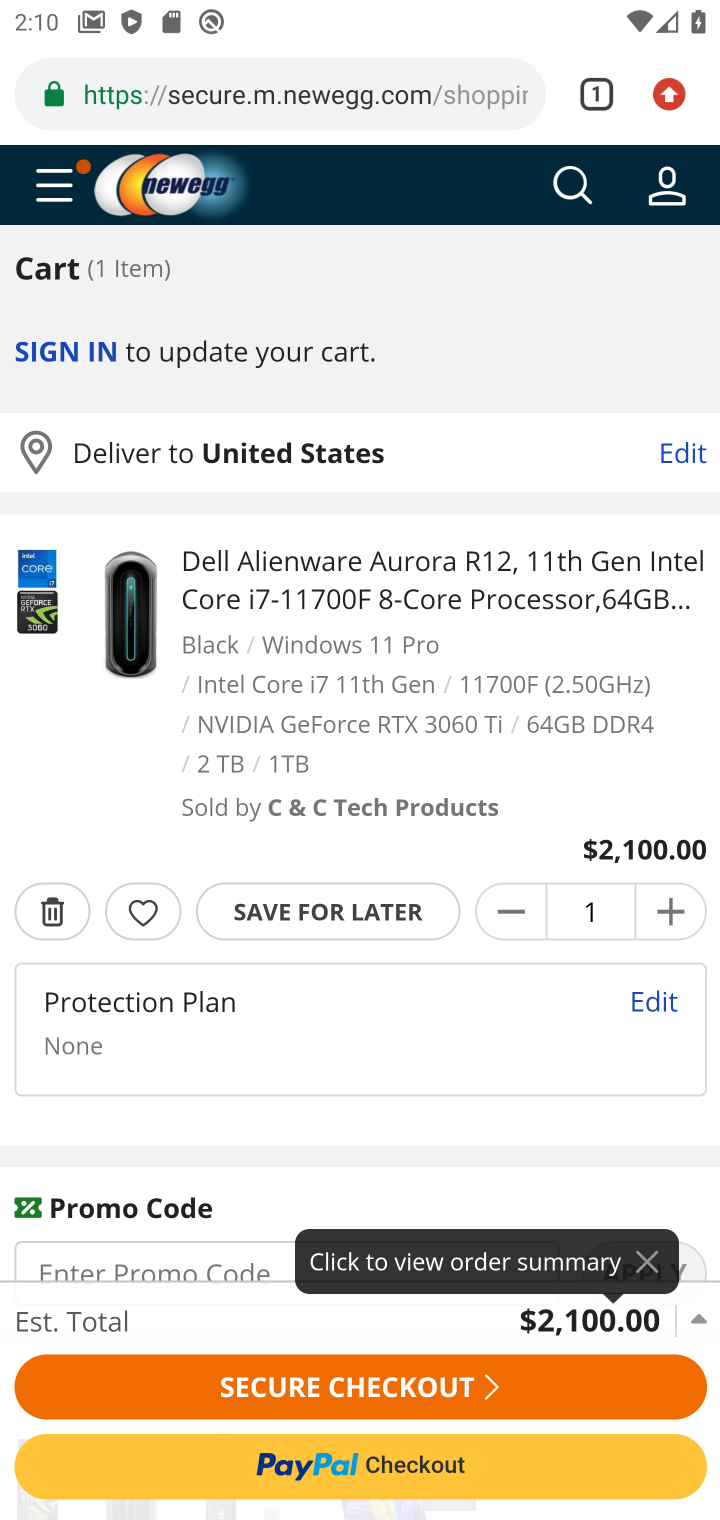
Step 31: click (368, 1364)
Your task to perform on an android device: Clear all items from cart on newegg.com. Add dell alienware to the cart on newegg.com, then select checkout. Image 32: 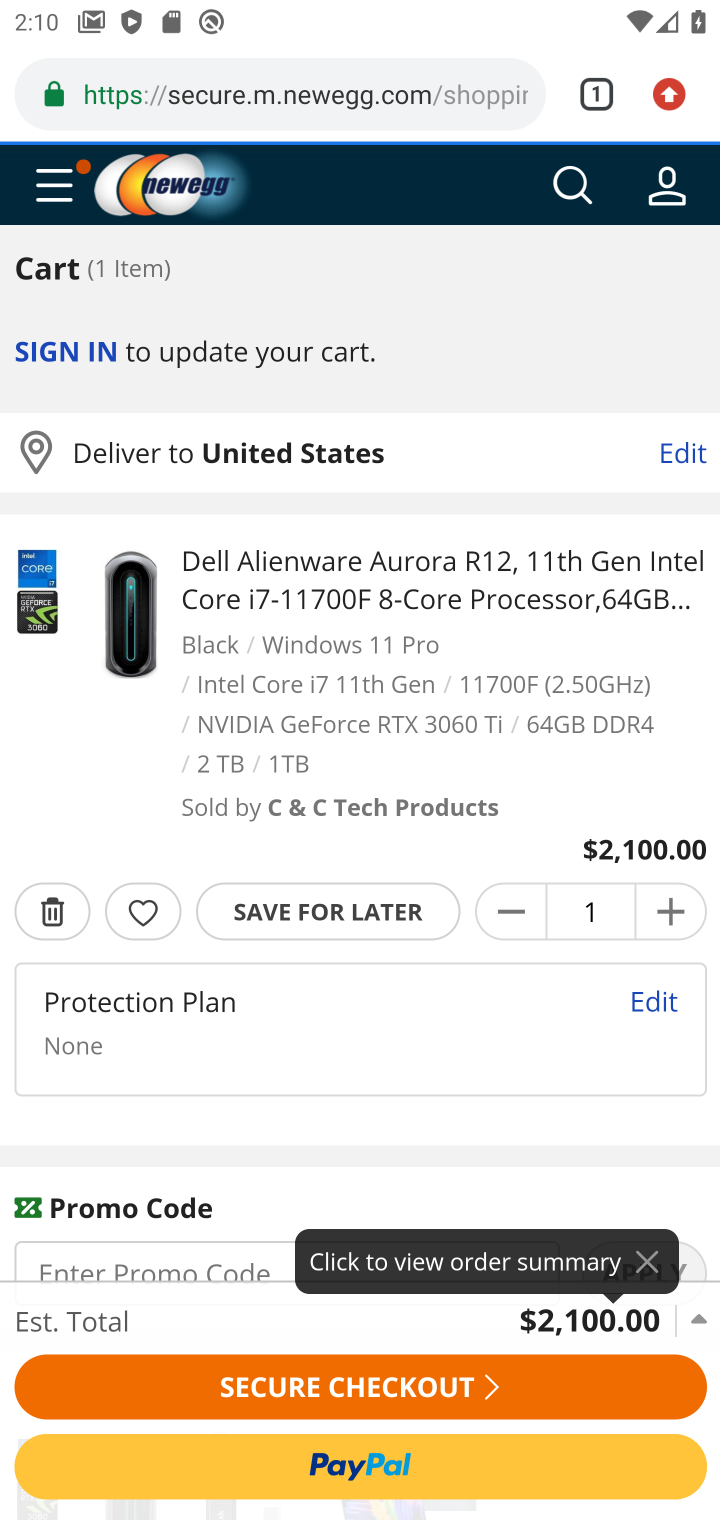
Step 32: click (408, 1386)
Your task to perform on an android device: Clear all items from cart on newegg.com. Add dell alienware to the cart on newegg.com, then select checkout. Image 33: 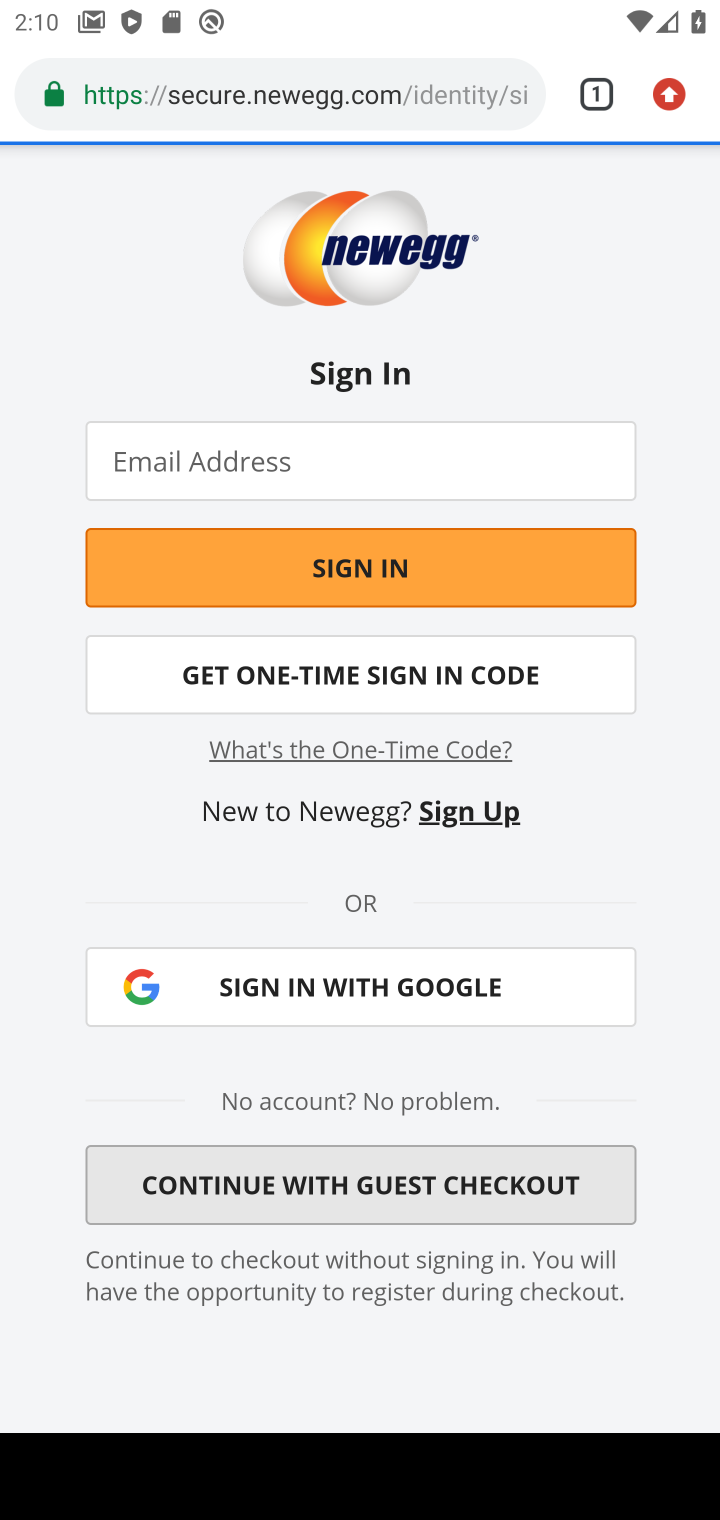
Step 33: task complete